Your task to perform on an android device: Empty the shopping cart on costco.com. Image 0: 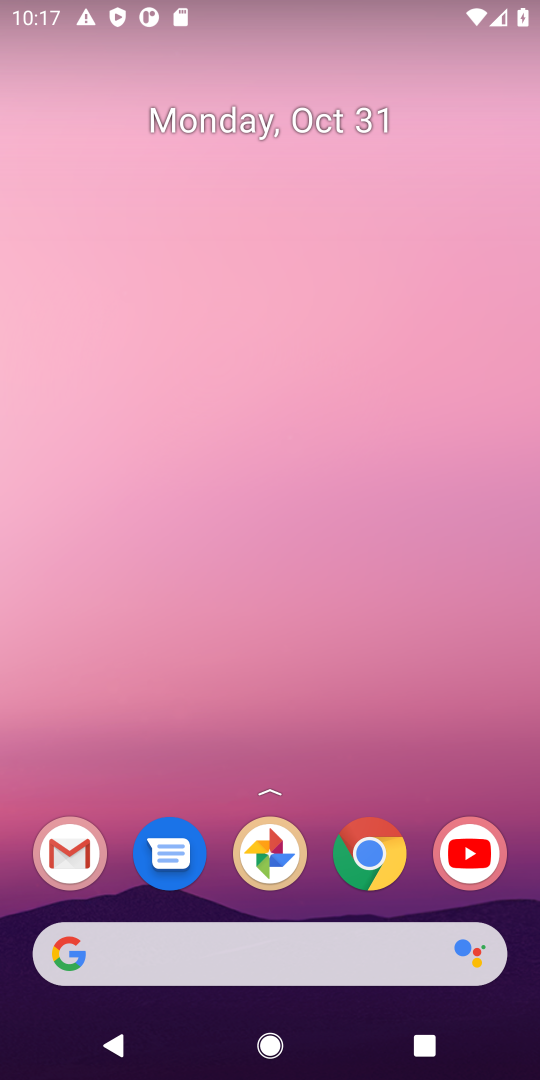
Step 0: click (192, 957)
Your task to perform on an android device: Empty the shopping cart on costco.com. Image 1: 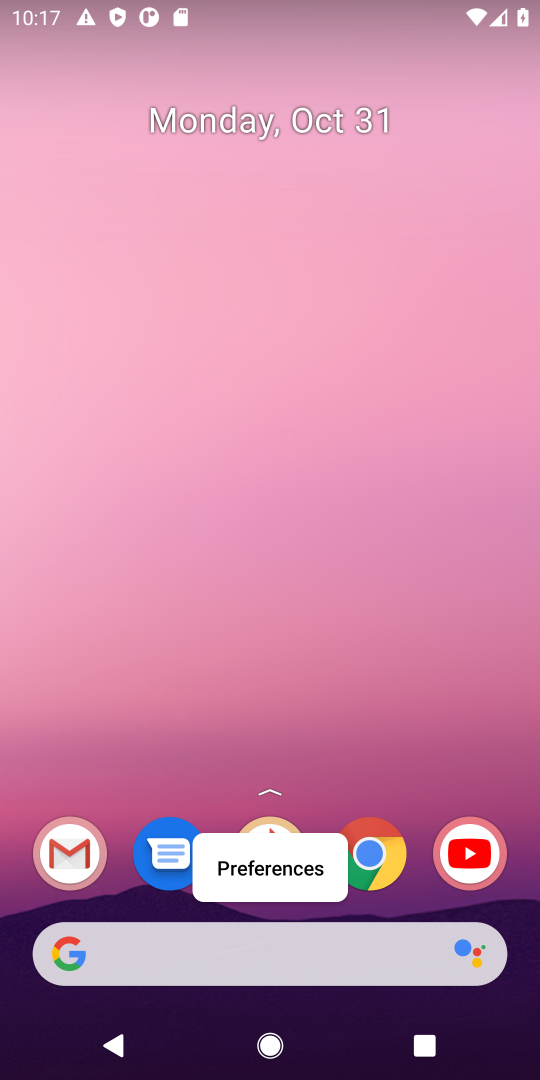
Step 1: click (274, 967)
Your task to perform on an android device: Empty the shopping cart on costco.com. Image 2: 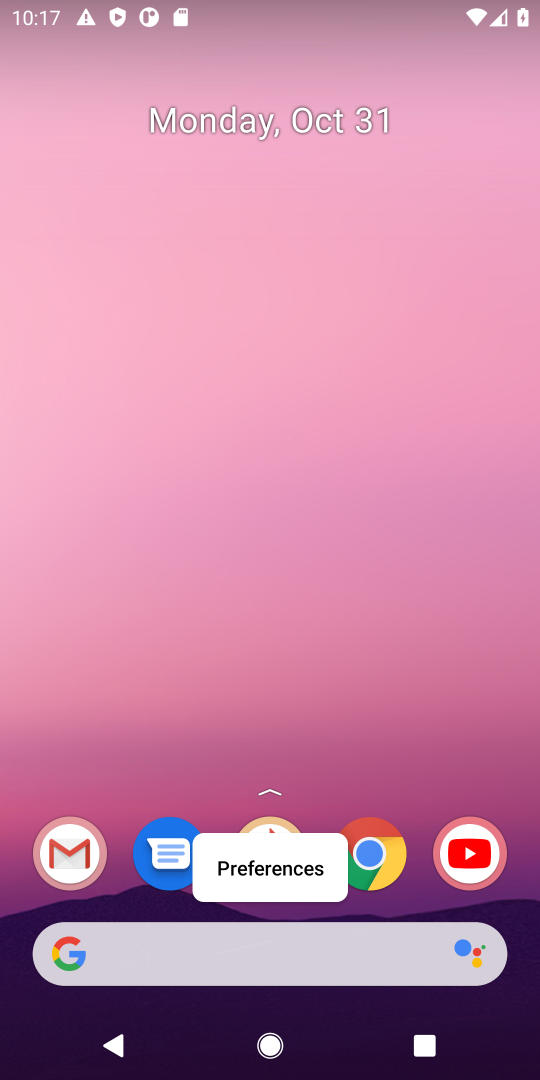
Step 2: click (230, 941)
Your task to perform on an android device: Empty the shopping cart on costco.com. Image 3: 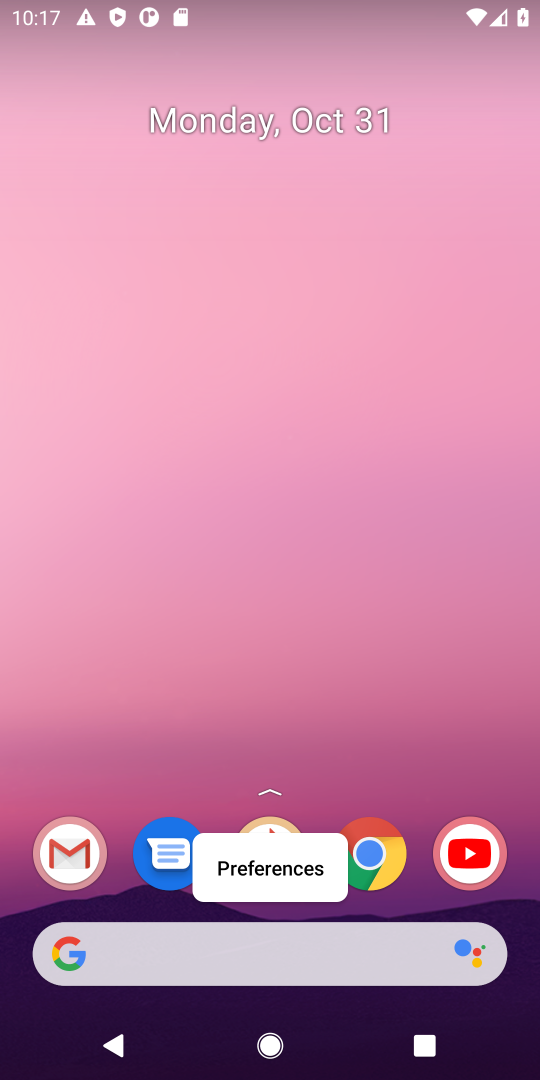
Step 3: click (234, 938)
Your task to perform on an android device: Empty the shopping cart on costco.com. Image 4: 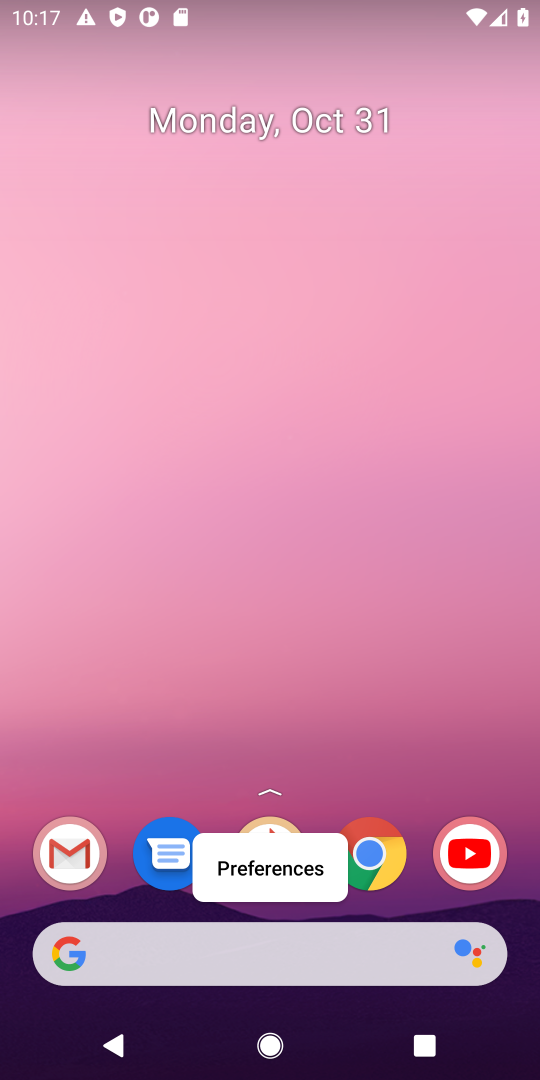
Step 4: click (234, 938)
Your task to perform on an android device: Empty the shopping cart on costco.com. Image 5: 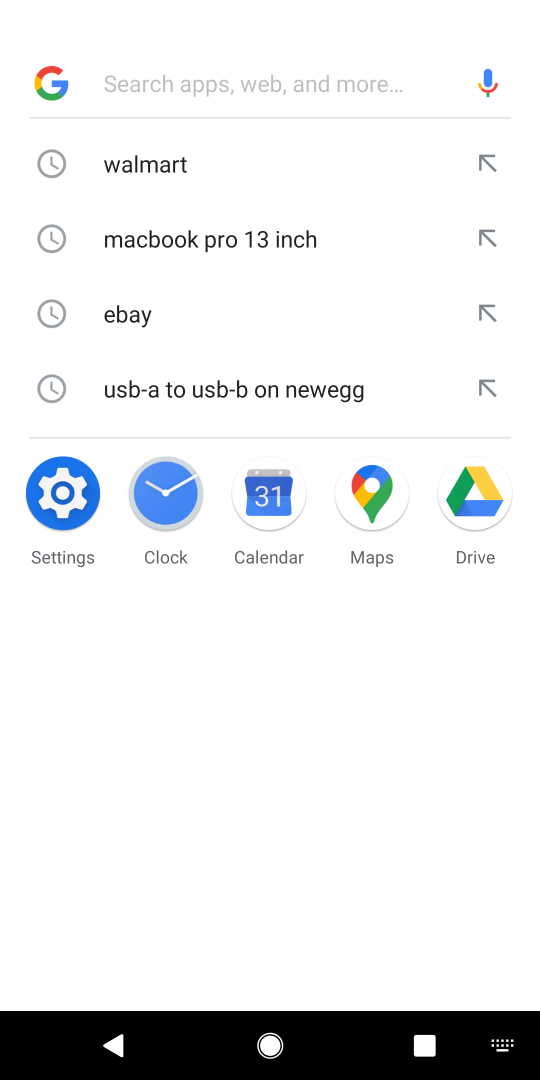
Step 5: type "costco.com"
Your task to perform on an android device: Empty the shopping cart on costco.com. Image 6: 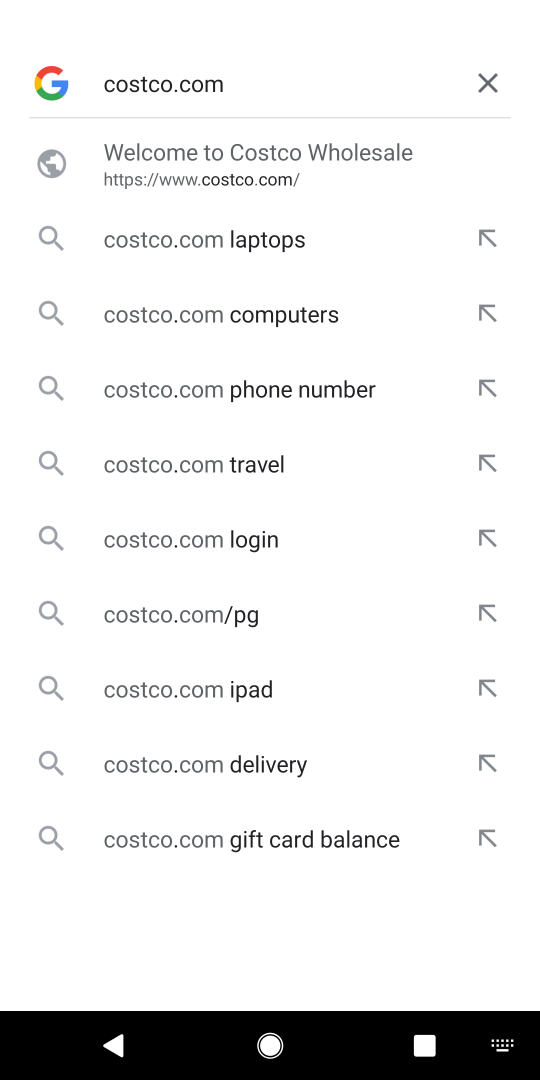
Step 6: type ""
Your task to perform on an android device: Empty the shopping cart on costco.com. Image 7: 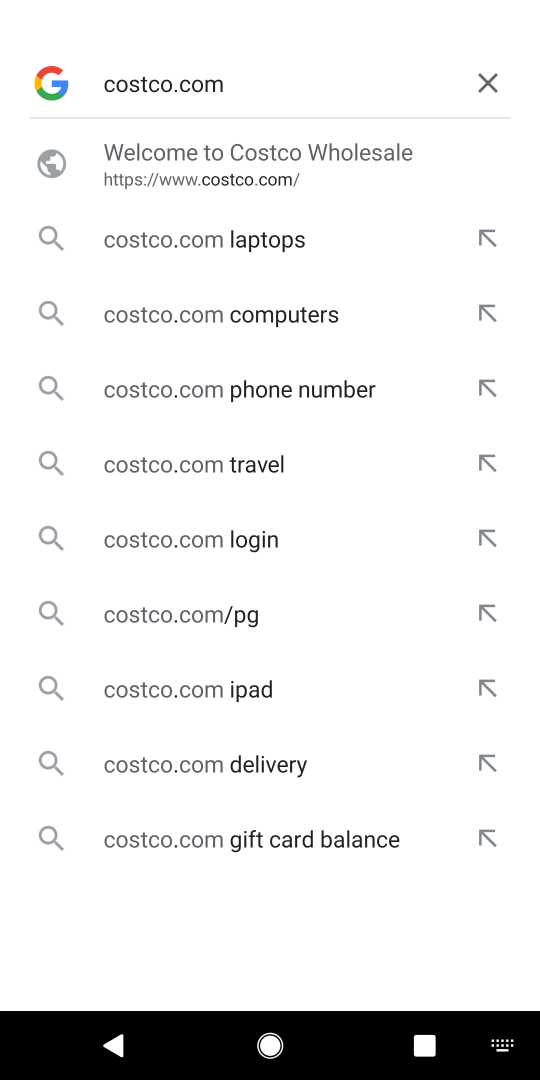
Step 7: press enter
Your task to perform on an android device: Empty the shopping cart on costco.com. Image 8: 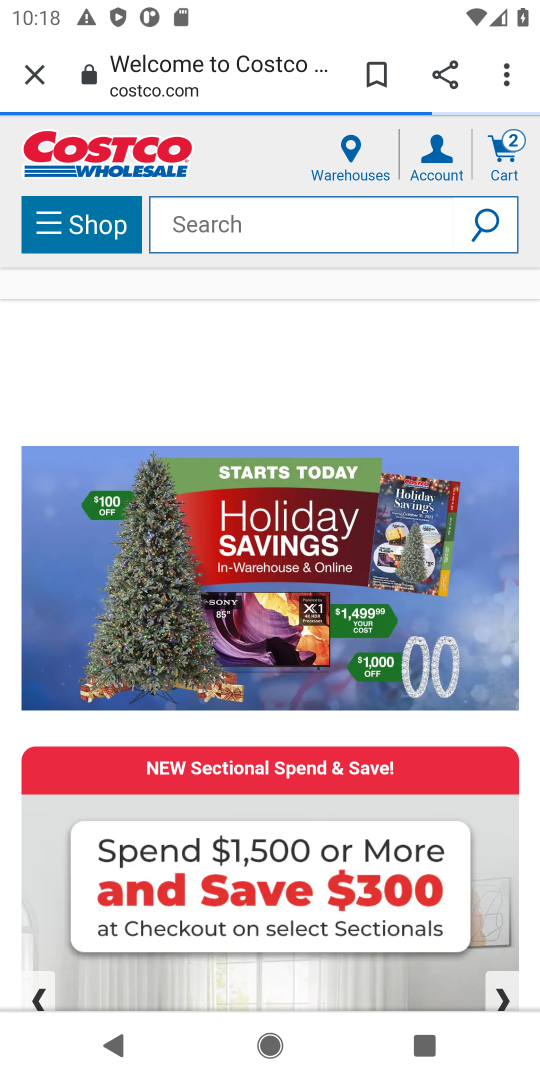
Step 8: click (235, 230)
Your task to perform on an android device: Empty the shopping cart on costco.com. Image 9: 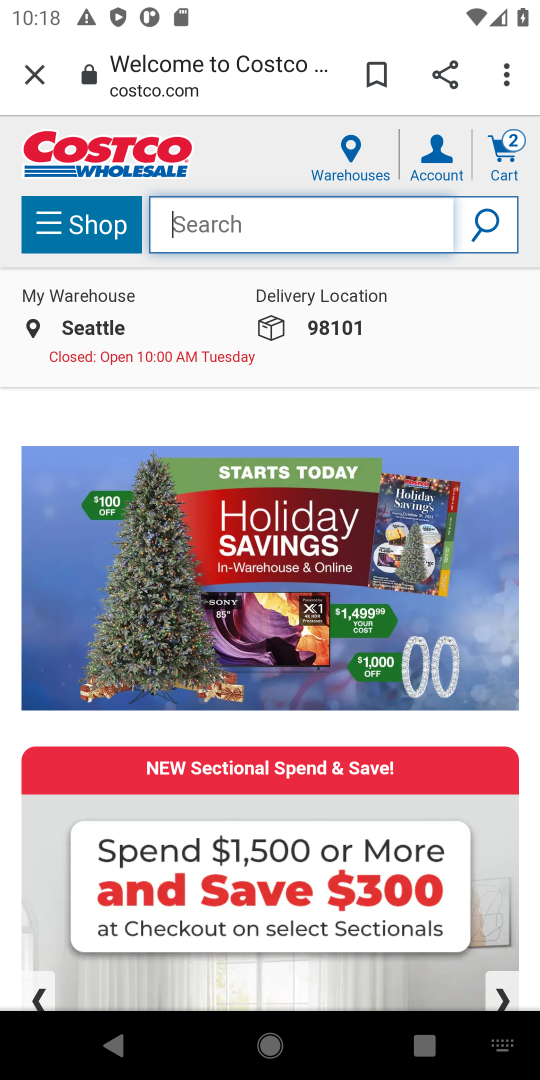
Step 9: click (515, 149)
Your task to perform on an android device: Empty the shopping cart on costco.com. Image 10: 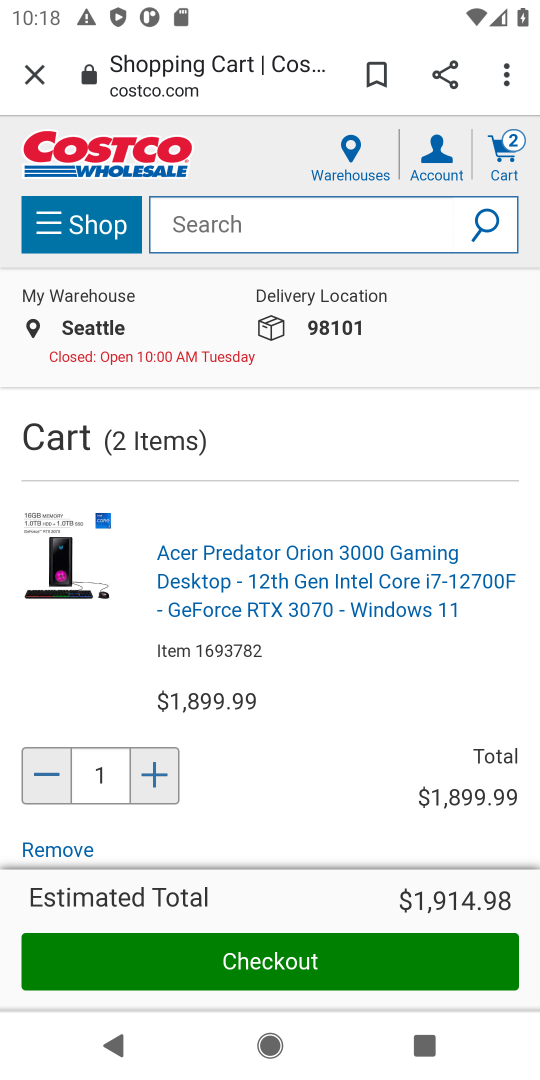
Step 10: click (47, 785)
Your task to perform on an android device: Empty the shopping cart on costco.com. Image 11: 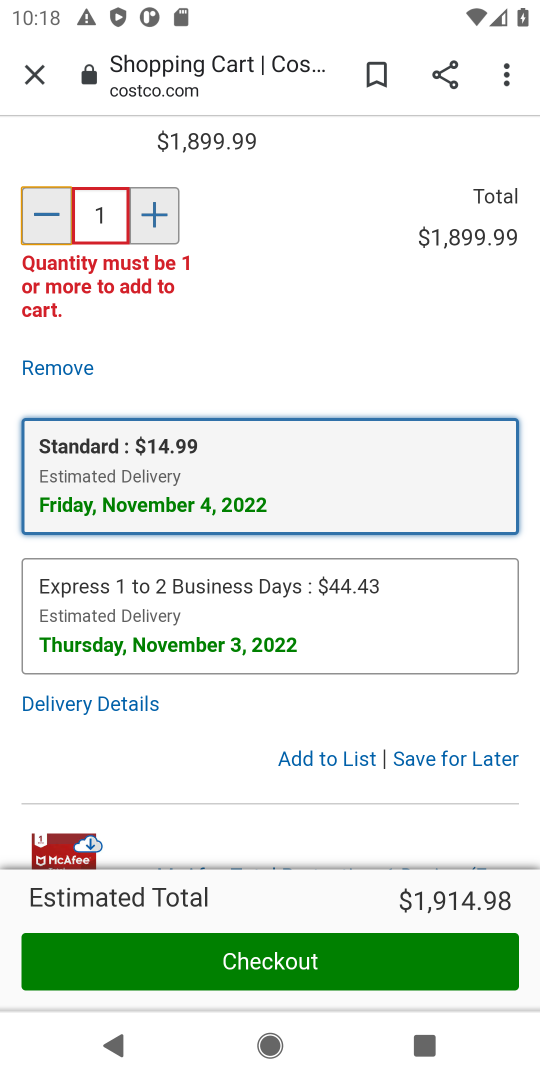
Step 11: click (40, 200)
Your task to perform on an android device: Empty the shopping cart on costco.com. Image 12: 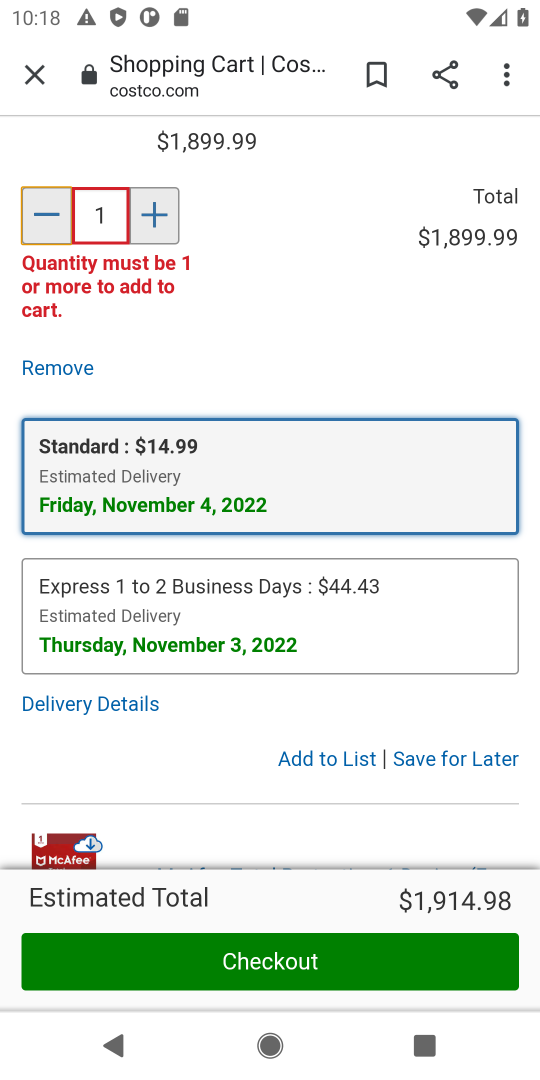
Step 12: click (43, 208)
Your task to perform on an android device: Empty the shopping cart on costco.com. Image 13: 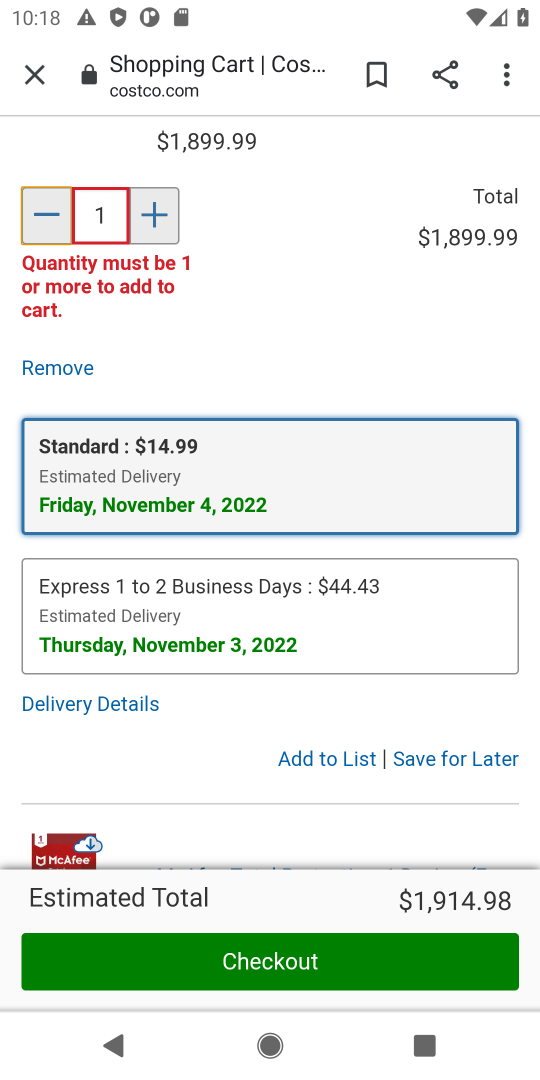
Step 13: click (43, 211)
Your task to perform on an android device: Empty the shopping cart on costco.com. Image 14: 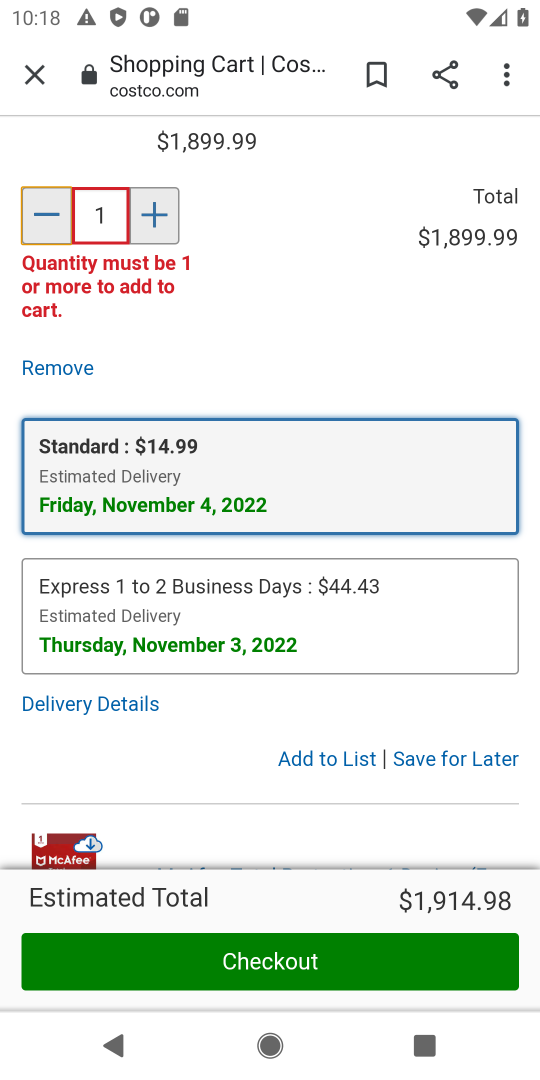
Step 14: click (43, 211)
Your task to perform on an android device: Empty the shopping cart on costco.com. Image 15: 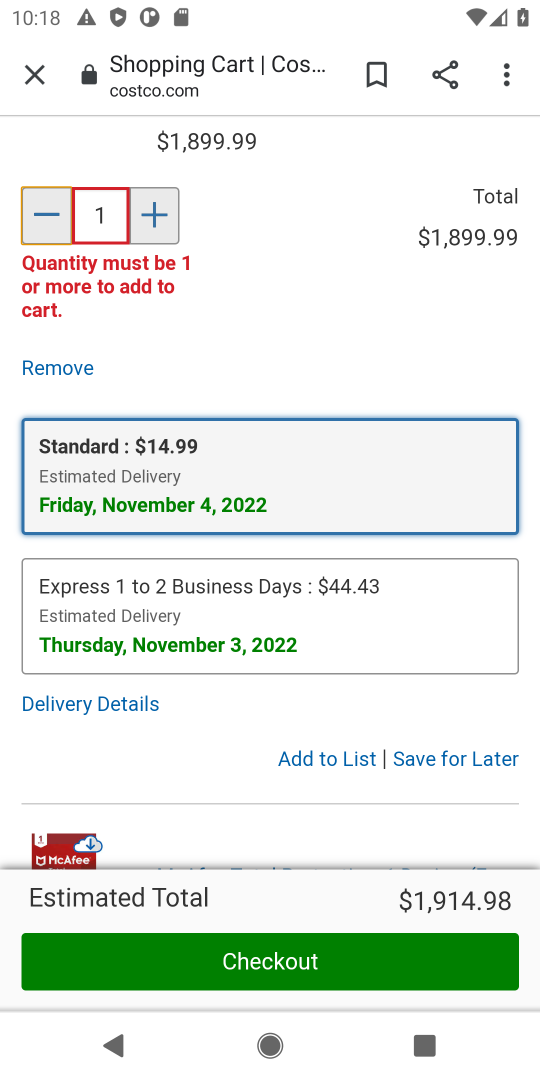
Step 15: drag from (306, 291) to (247, 1037)
Your task to perform on an android device: Empty the shopping cart on costco.com. Image 16: 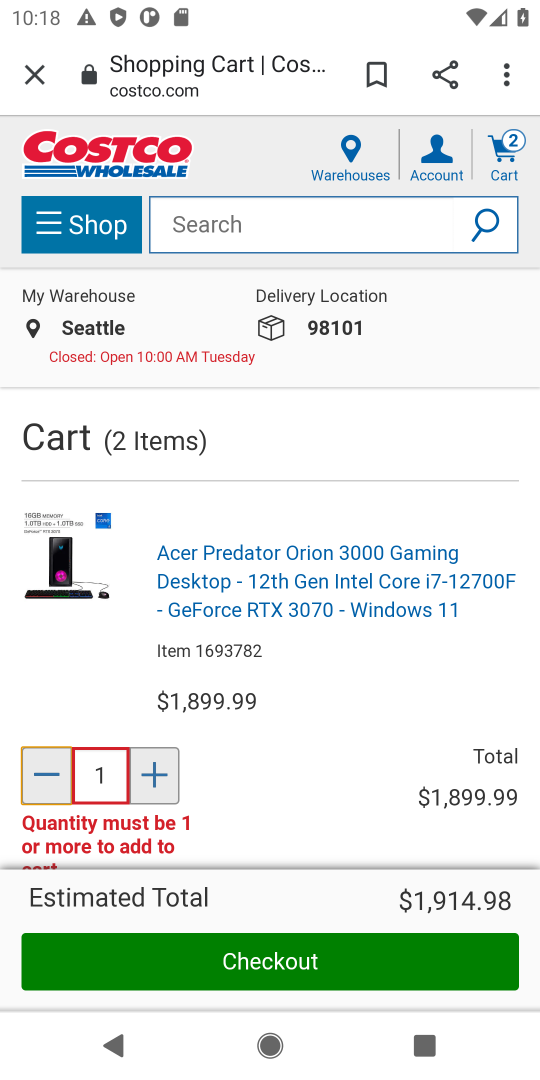
Step 16: drag from (230, 386) to (232, 688)
Your task to perform on an android device: Empty the shopping cart on costco.com. Image 17: 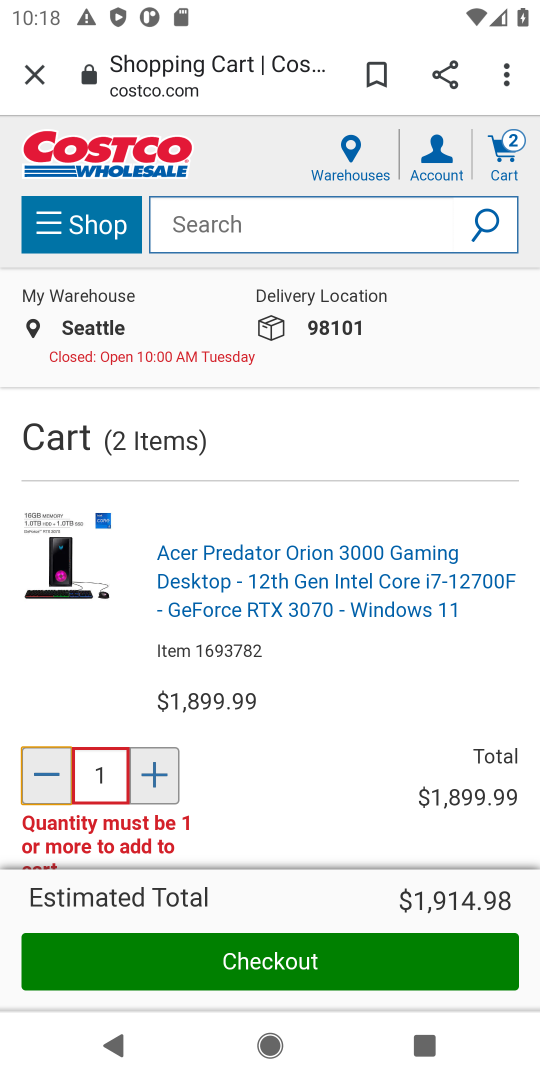
Step 17: drag from (265, 698) to (244, 545)
Your task to perform on an android device: Empty the shopping cart on costco.com. Image 18: 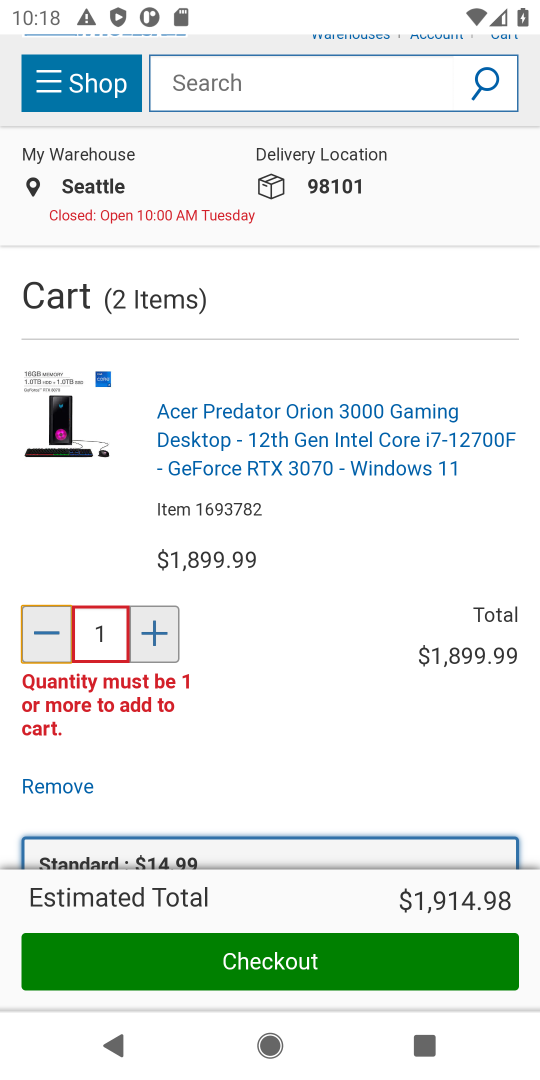
Step 18: click (58, 690)
Your task to perform on an android device: Empty the shopping cart on costco.com. Image 19: 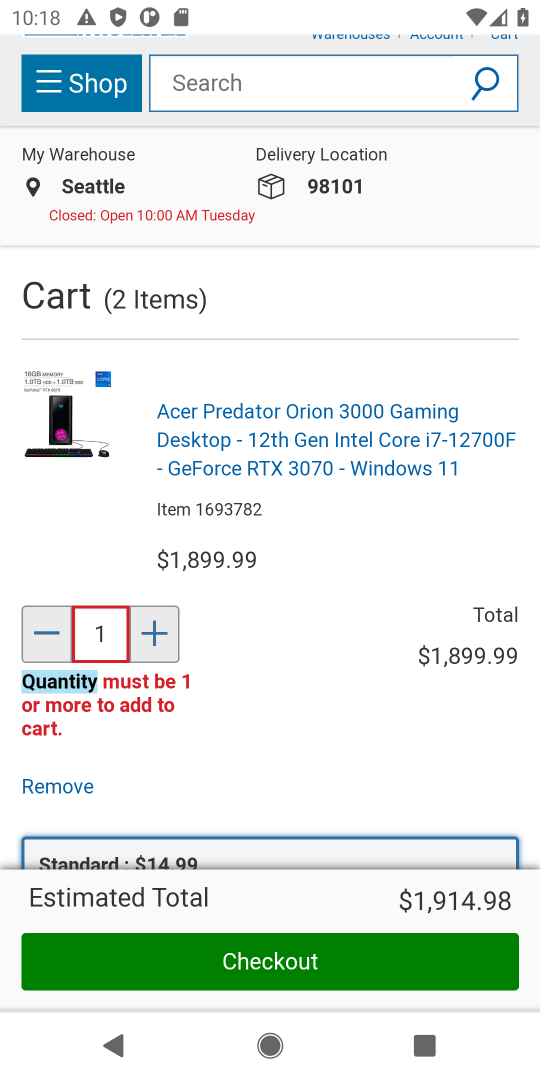
Step 19: click (162, 510)
Your task to perform on an android device: Empty the shopping cart on costco.com. Image 20: 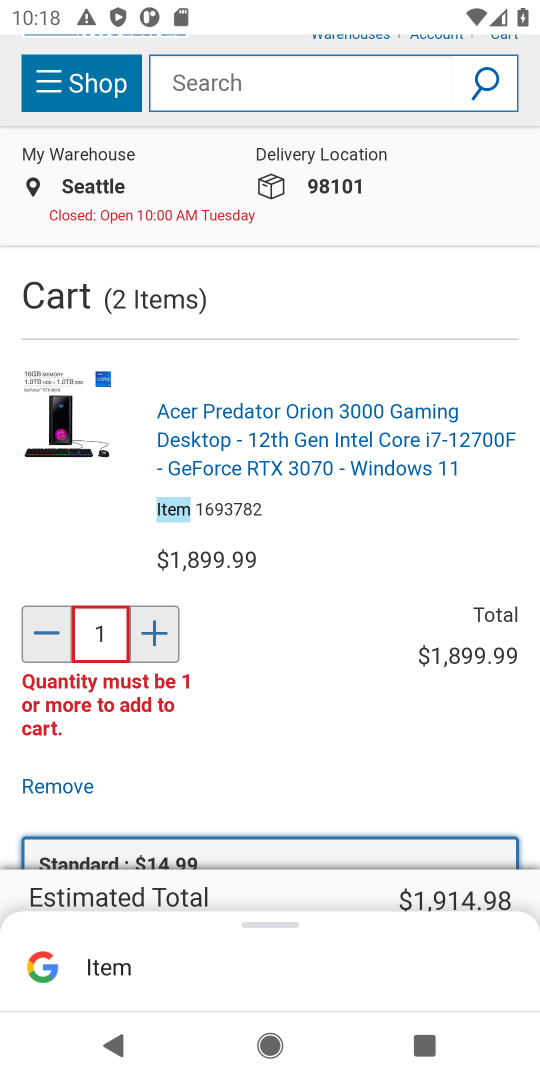
Step 20: click (277, 726)
Your task to perform on an android device: Empty the shopping cart on costco.com. Image 21: 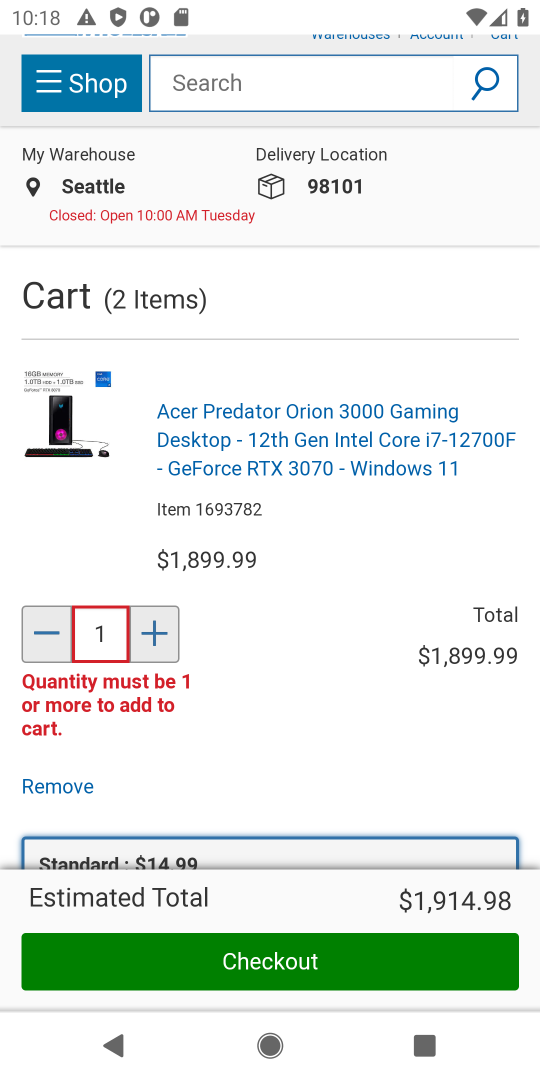
Step 21: click (31, 640)
Your task to perform on an android device: Empty the shopping cart on costco.com. Image 22: 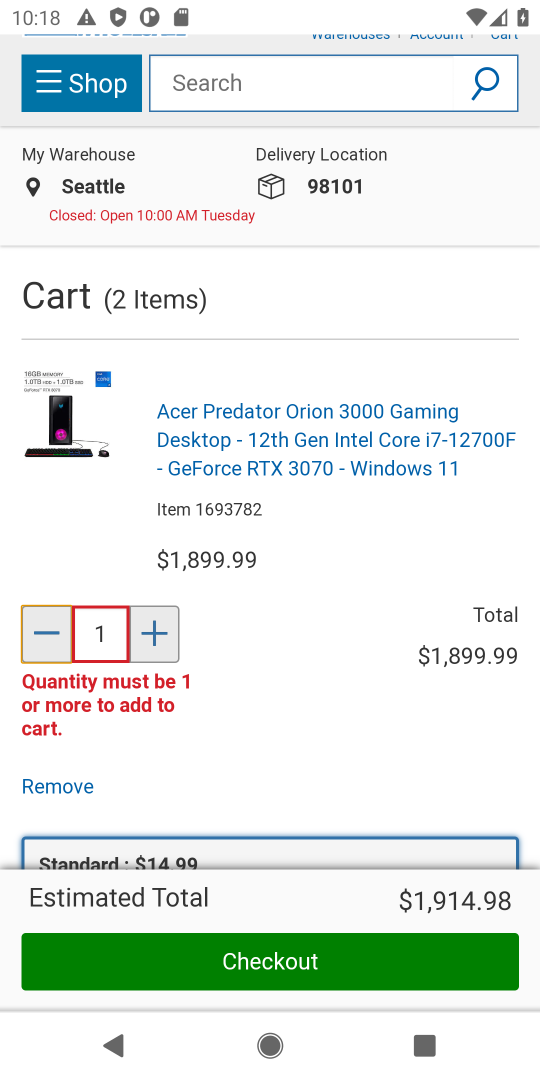
Step 22: click (66, 778)
Your task to perform on an android device: Empty the shopping cart on costco.com. Image 23: 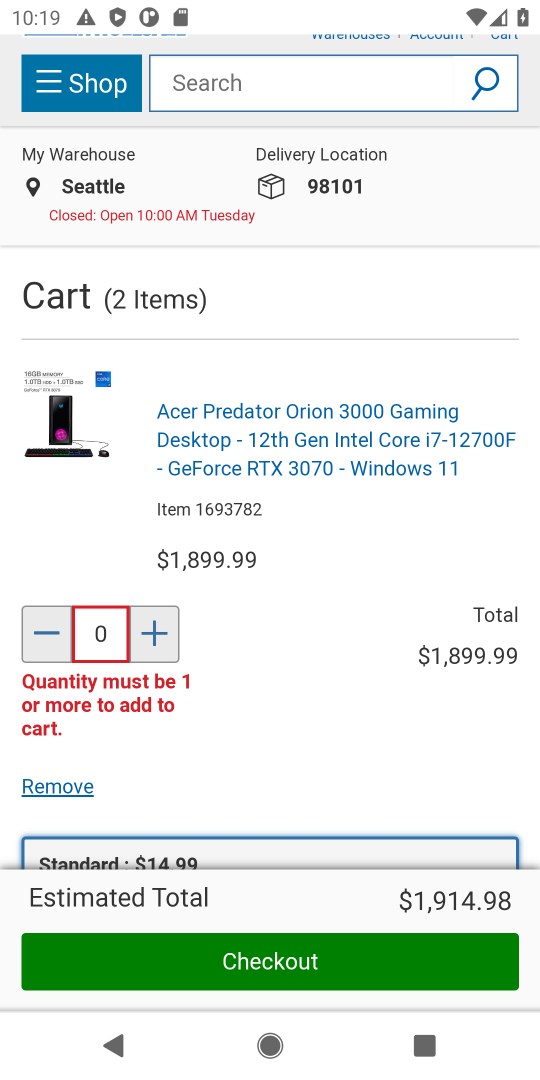
Step 23: click (53, 788)
Your task to perform on an android device: Empty the shopping cart on costco.com. Image 24: 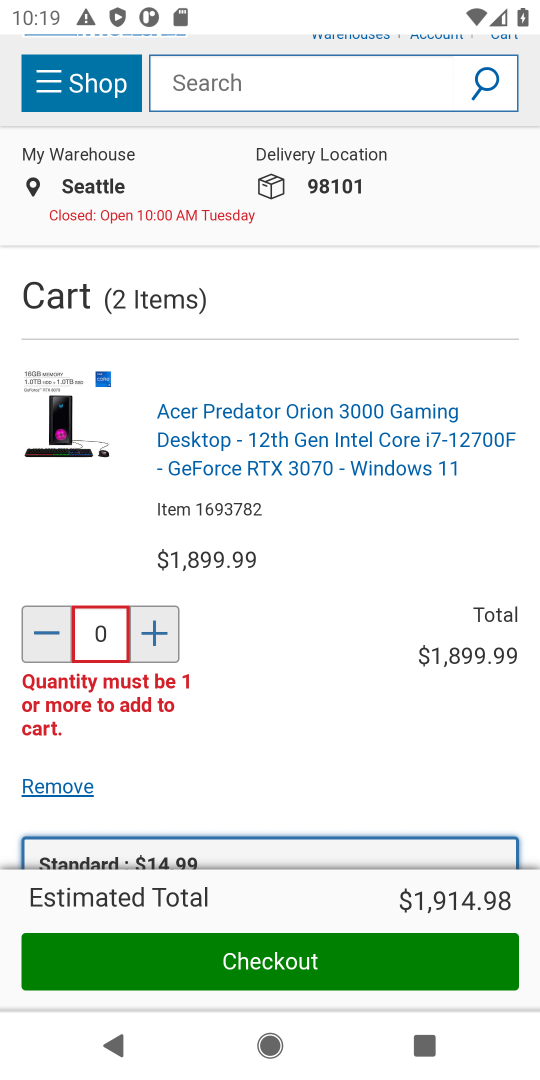
Step 24: click (53, 788)
Your task to perform on an android device: Empty the shopping cart on costco.com. Image 25: 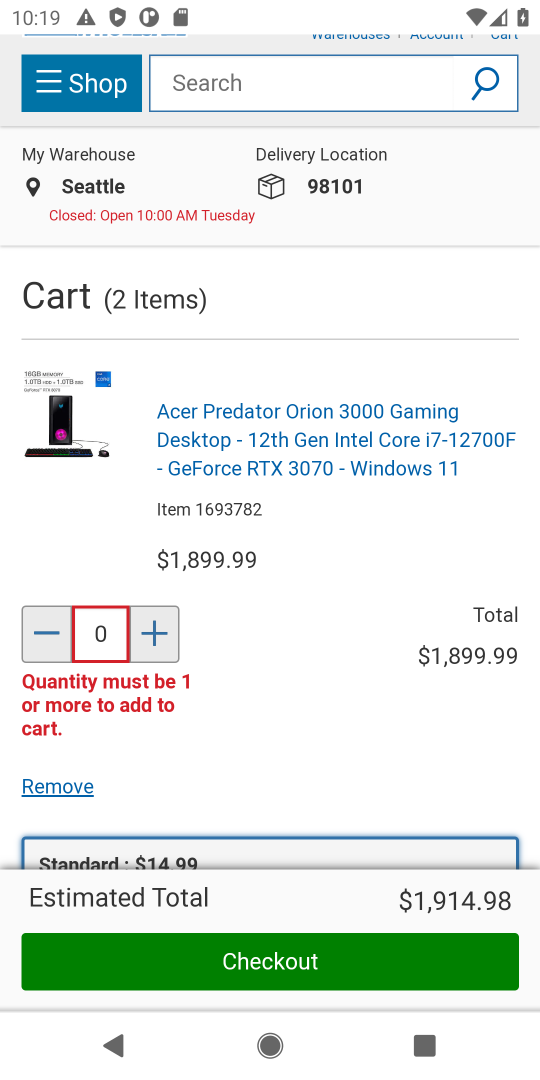
Step 25: drag from (240, 751) to (233, 308)
Your task to perform on an android device: Empty the shopping cart on costco.com. Image 26: 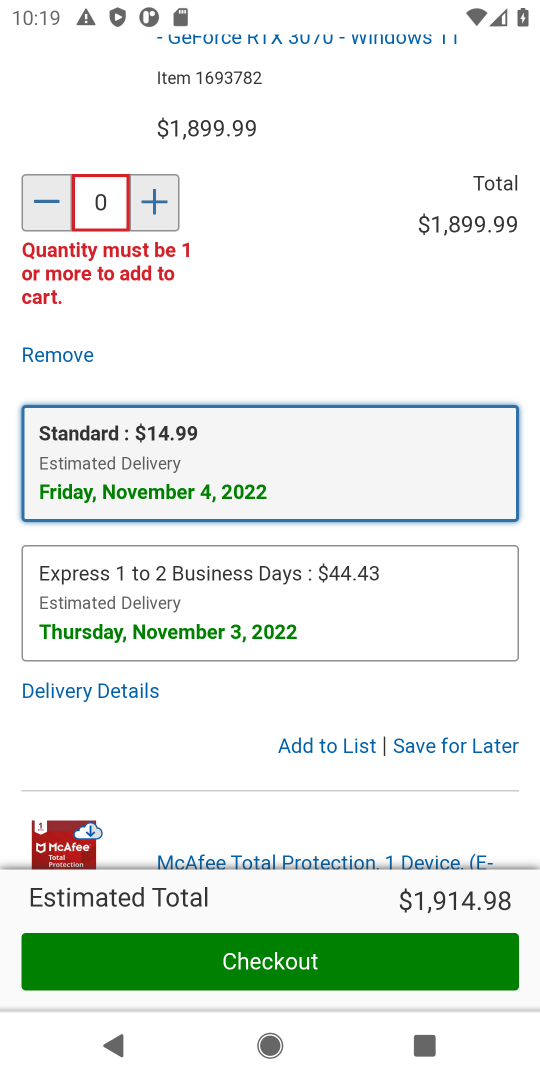
Step 26: drag from (152, 714) to (189, 309)
Your task to perform on an android device: Empty the shopping cart on costco.com. Image 27: 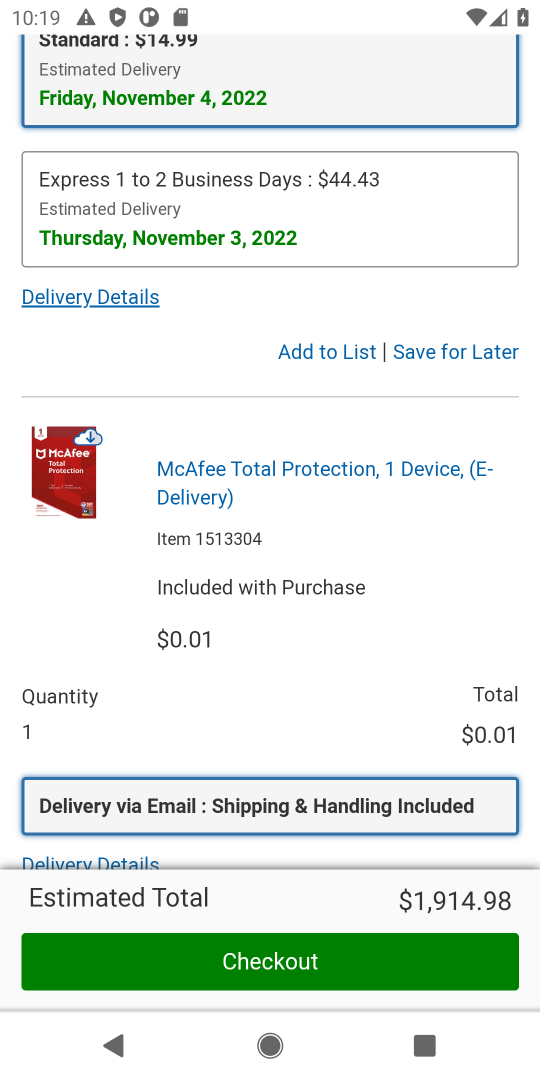
Step 27: drag from (128, 729) to (162, 379)
Your task to perform on an android device: Empty the shopping cart on costco.com. Image 28: 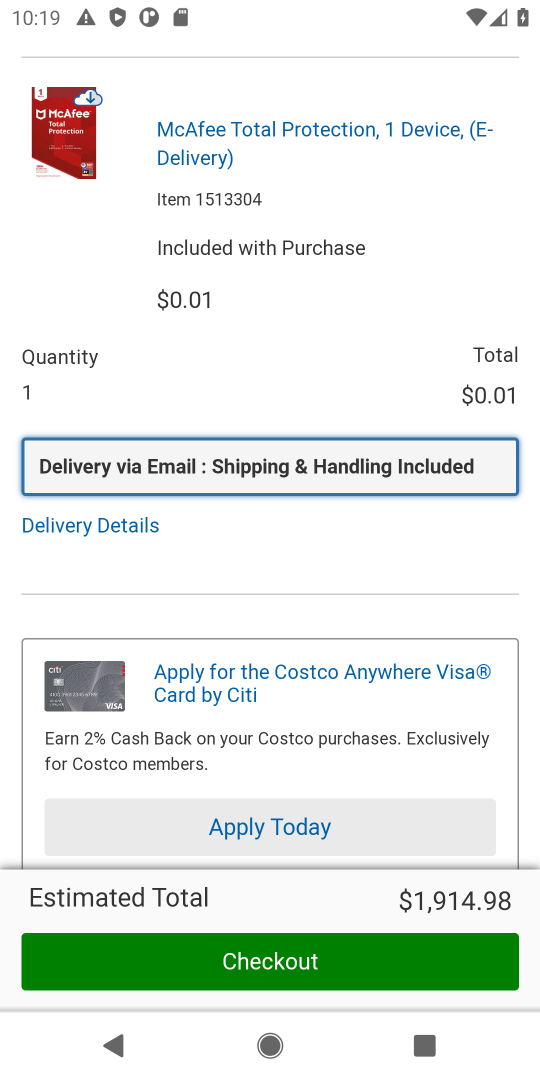
Step 28: drag from (335, 333) to (217, 946)
Your task to perform on an android device: Empty the shopping cart on costco.com. Image 29: 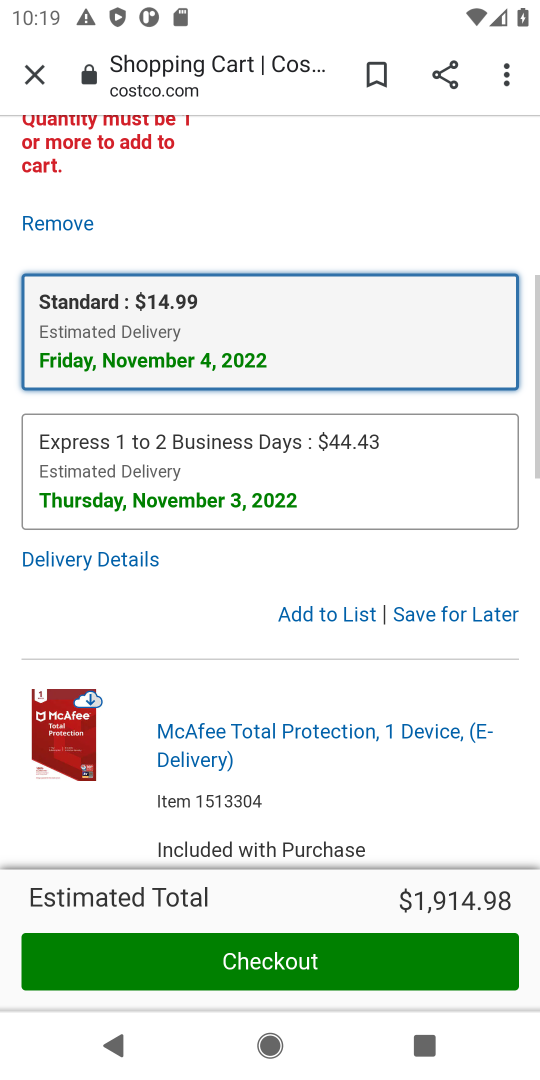
Step 29: drag from (242, 334) to (292, 787)
Your task to perform on an android device: Empty the shopping cart on costco.com. Image 30: 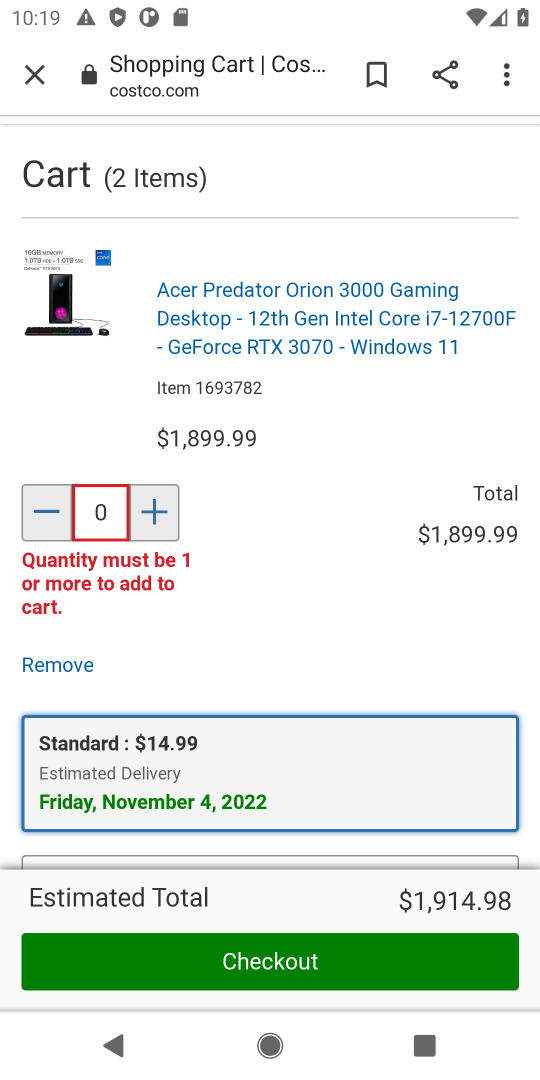
Step 30: drag from (298, 656) to (284, 601)
Your task to perform on an android device: Empty the shopping cart on costco.com. Image 31: 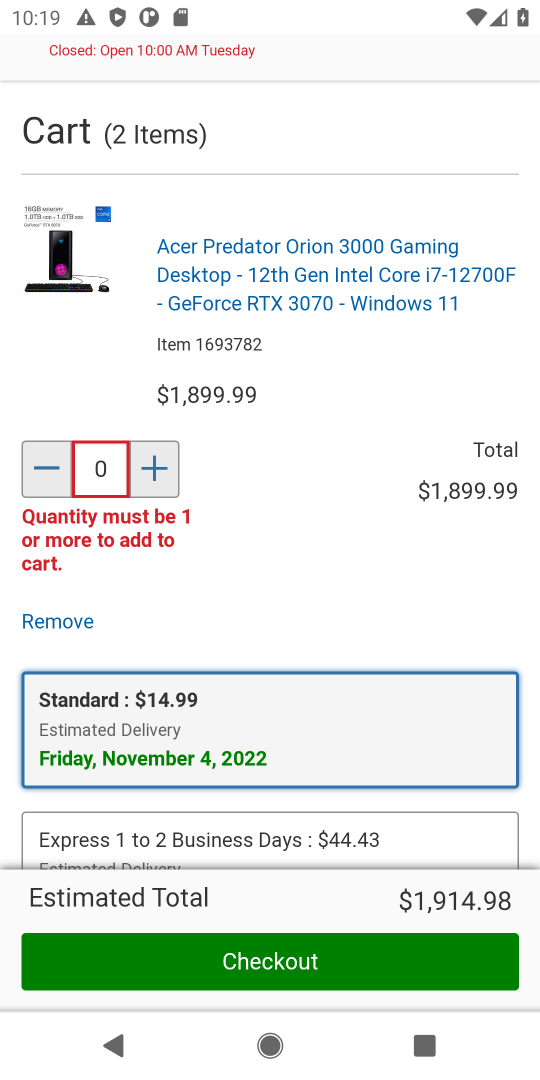
Step 31: click (54, 624)
Your task to perform on an android device: Empty the shopping cart on costco.com. Image 32: 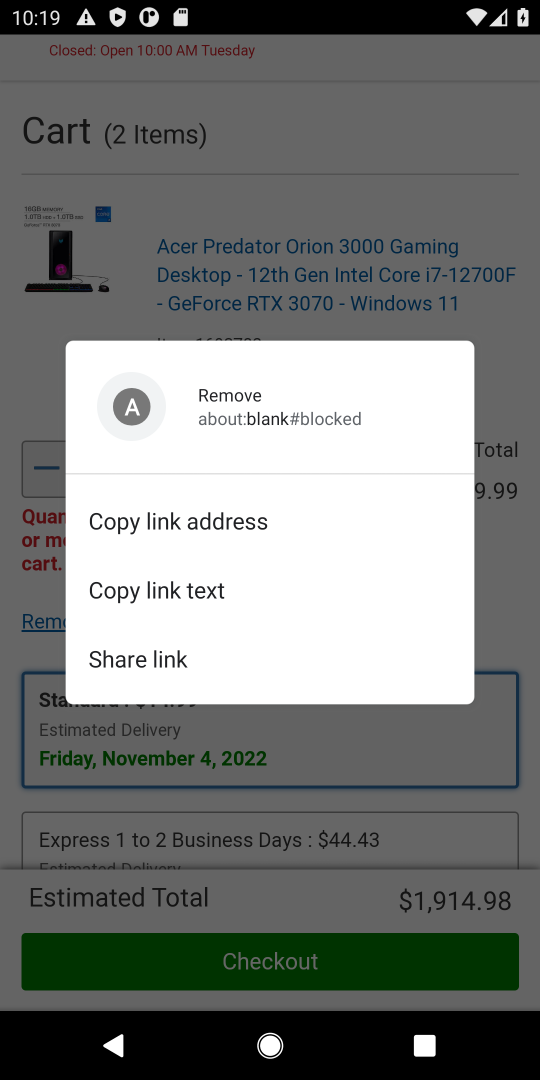
Step 32: click (54, 625)
Your task to perform on an android device: Empty the shopping cart on costco.com. Image 33: 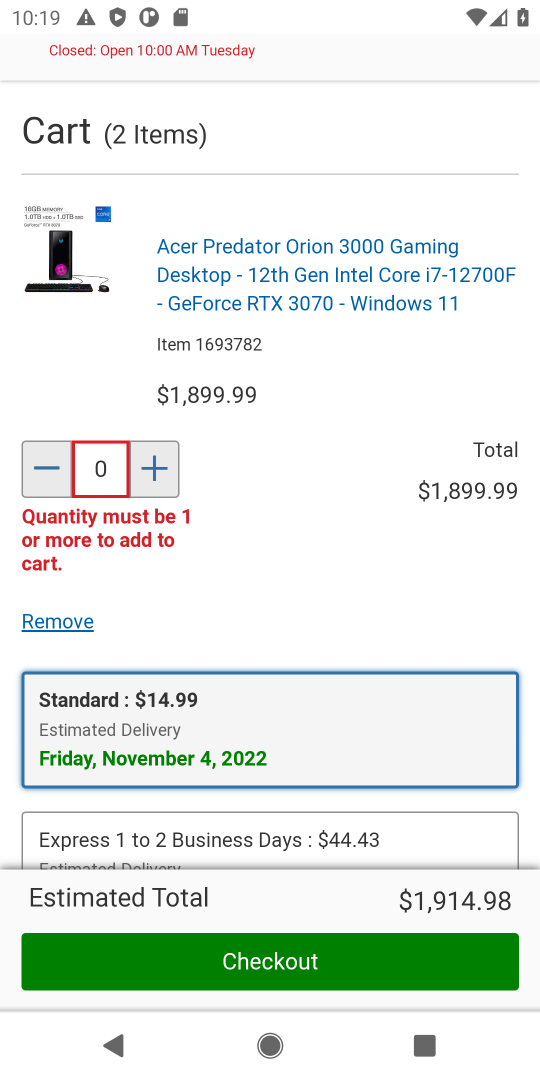
Step 33: click (54, 625)
Your task to perform on an android device: Empty the shopping cart on costco.com. Image 34: 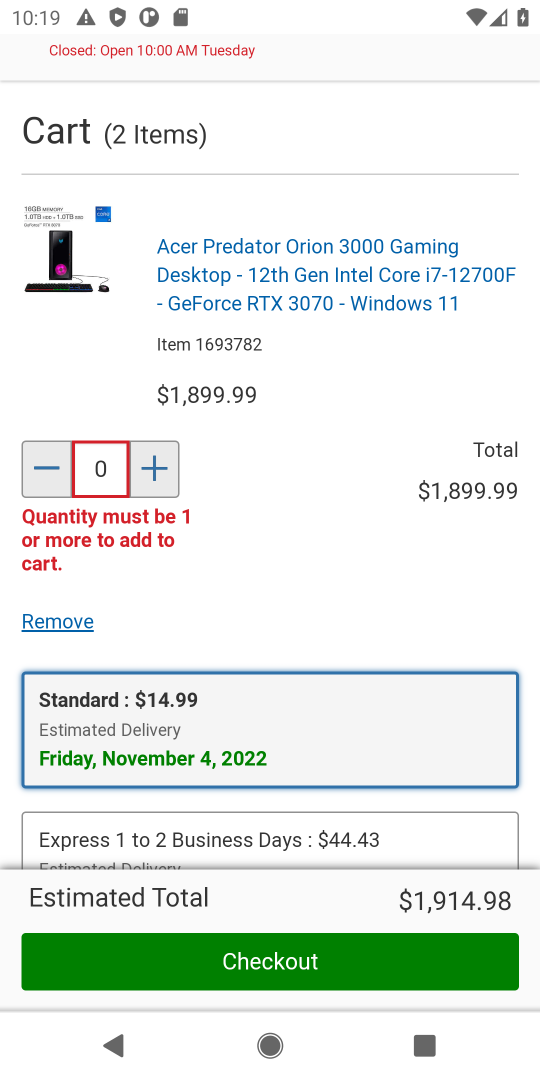
Step 34: click (322, 745)
Your task to perform on an android device: Empty the shopping cart on costco.com. Image 35: 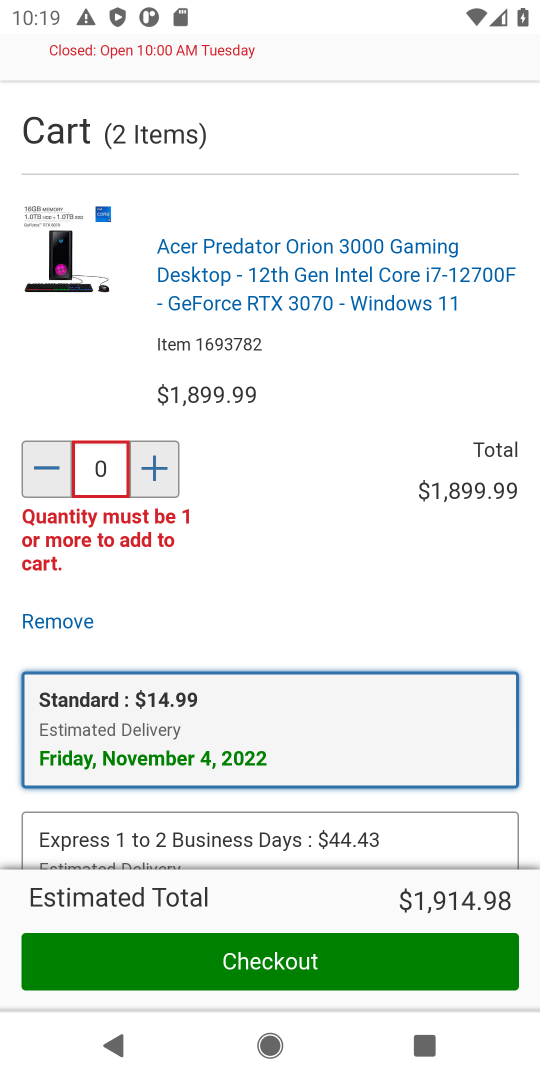
Step 35: drag from (317, 742) to (255, 315)
Your task to perform on an android device: Empty the shopping cart on costco.com. Image 36: 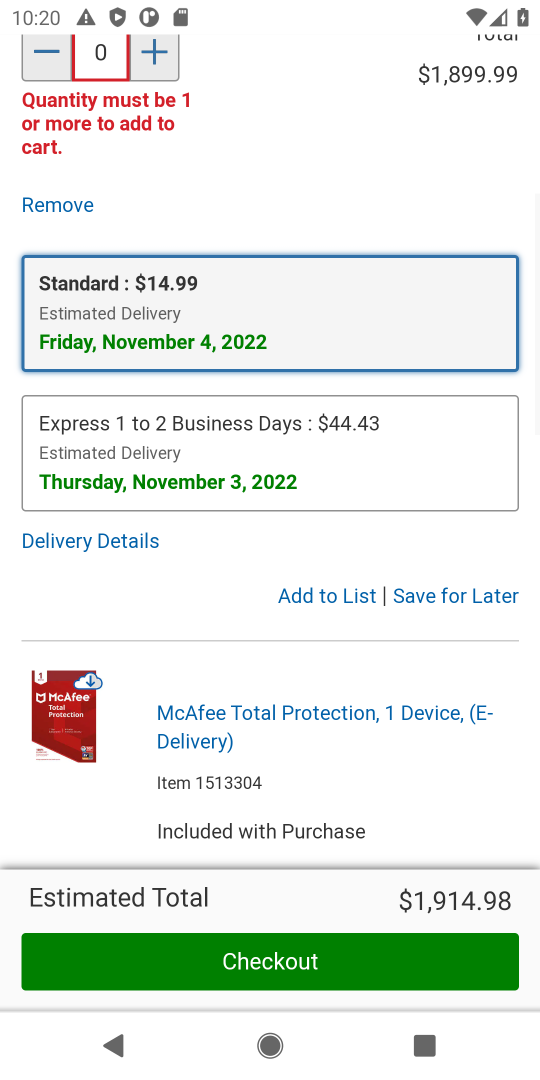
Step 36: click (265, 950)
Your task to perform on an android device: Empty the shopping cart on costco.com. Image 37: 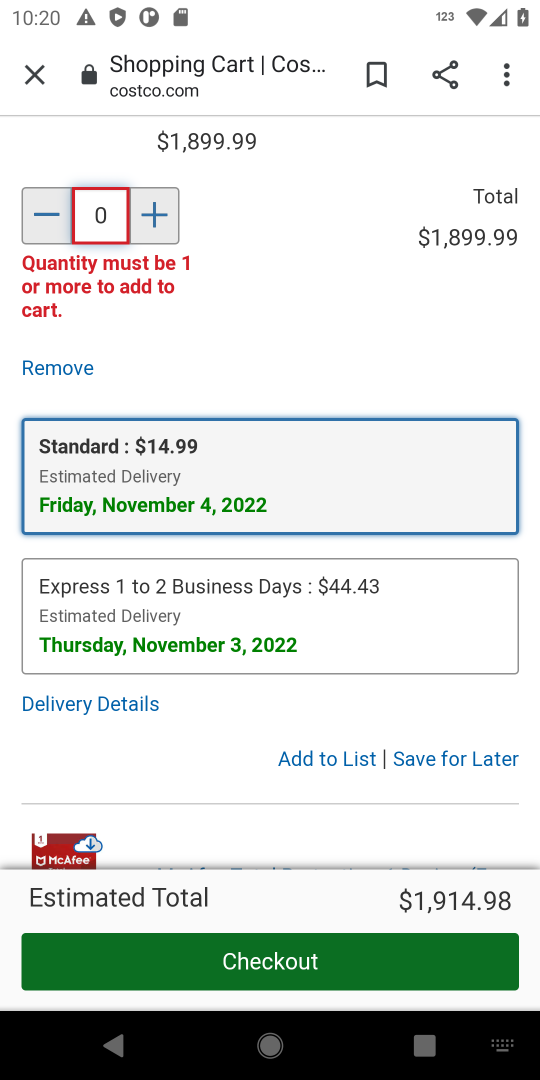
Step 37: click (55, 220)
Your task to perform on an android device: Empty the shopping cart on costco.com. Image 38: 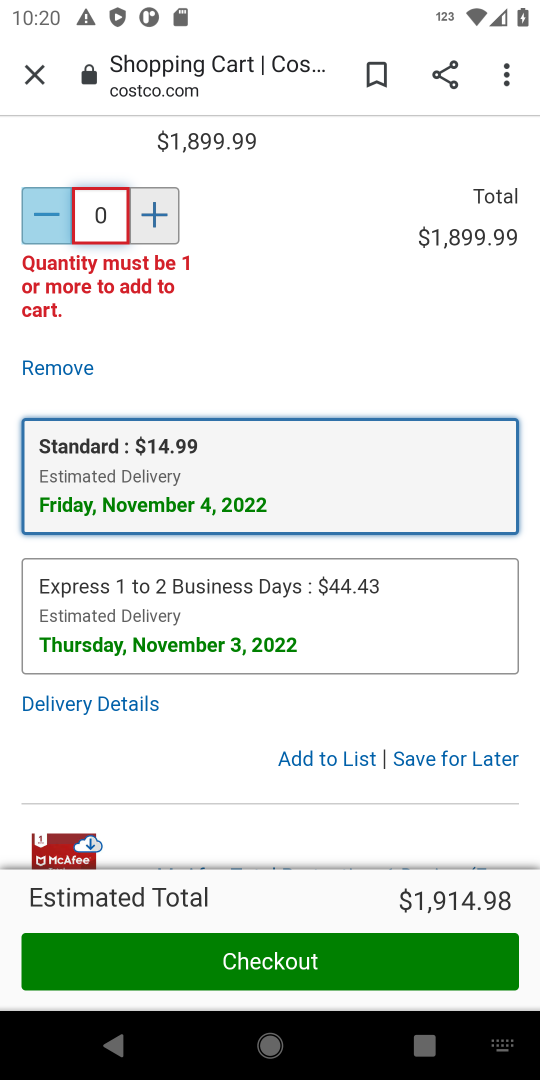
Step 38: click (366, 337)
Your task to perform on an android device: Empty the shopping cart on costco.com. Image 39: 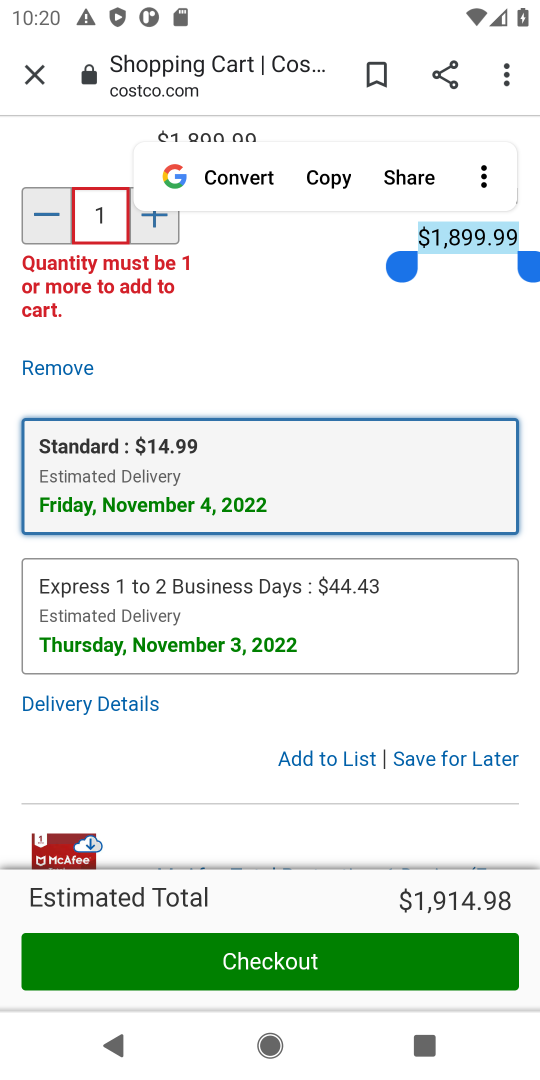
Step 39: click (411, 889)
Your task to perform on an android device: Empty the shopping cart on costco.com. Image 40: 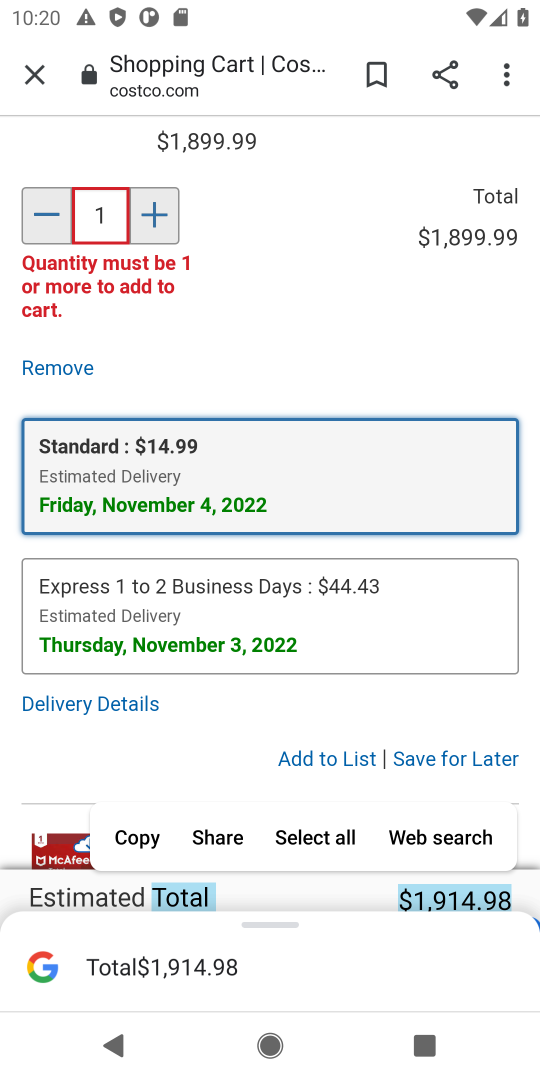
Step 40: click (317, 901)
Your task to perform on an android device: Empty the shopping cart on costco.com. Image 41: 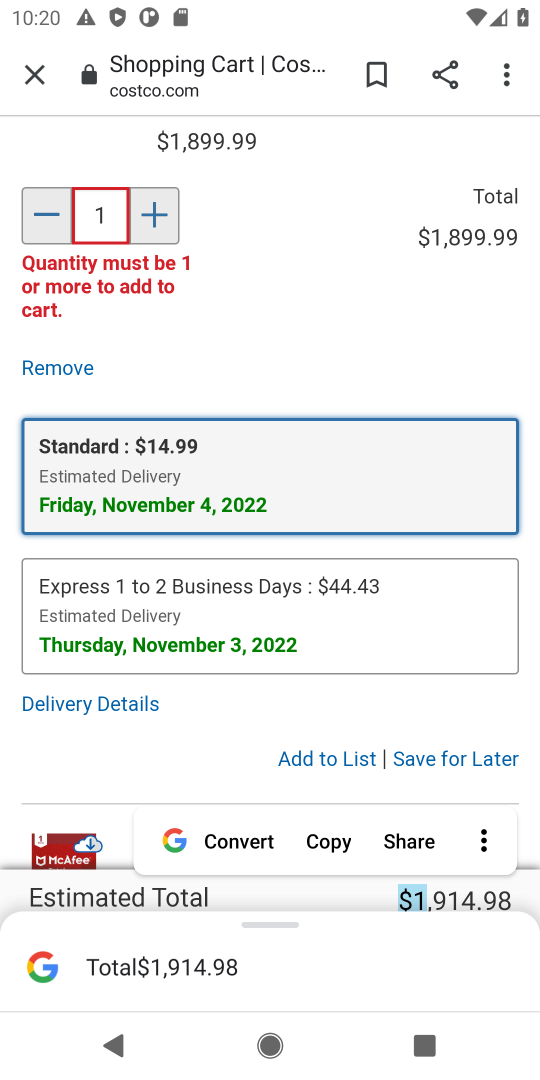
Step 41: click (199, 728)
Your task to perform on an android device: Empty the shopping cart on costco.com. Image 42: 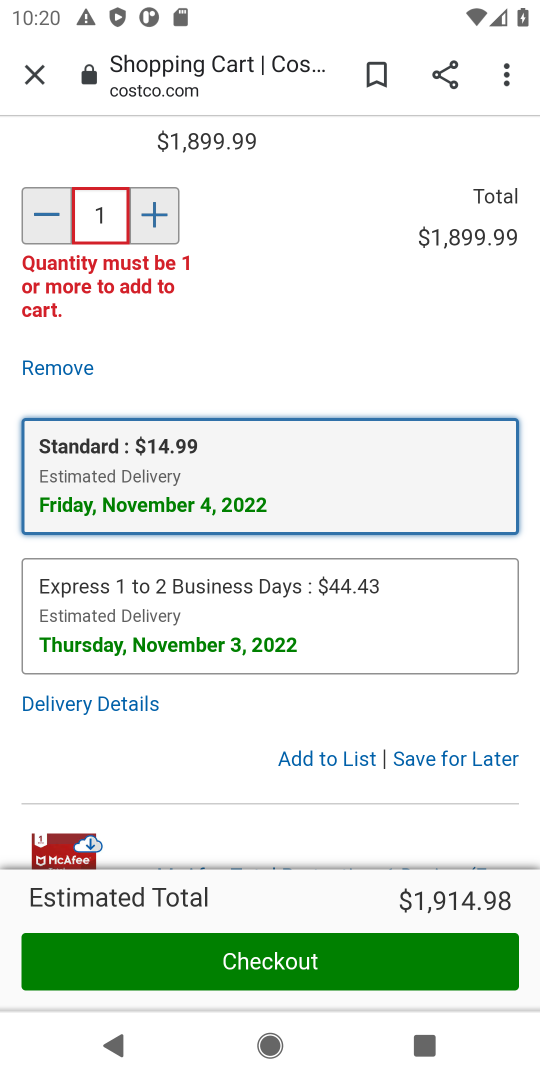
Step 42: drag from (197, 723) to (208, 283)
Your task to perform on an android device: Empty the shopping cart on costco.com. Image 43: 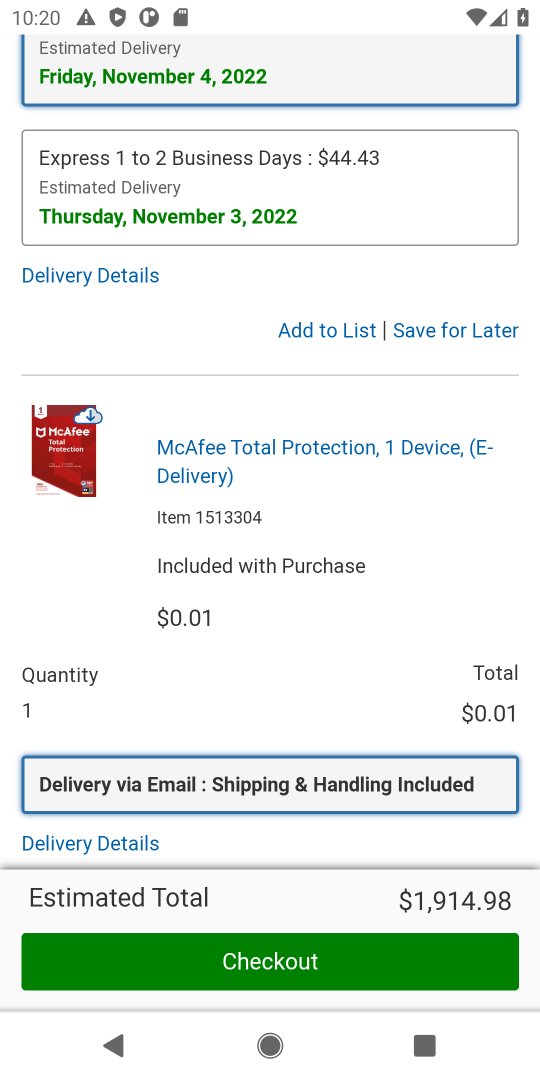
Step 43: drag from (318, 760) to (314, 252)
Your task to perform on an android device: Empty the shopping cart on costco.com. Image 44: 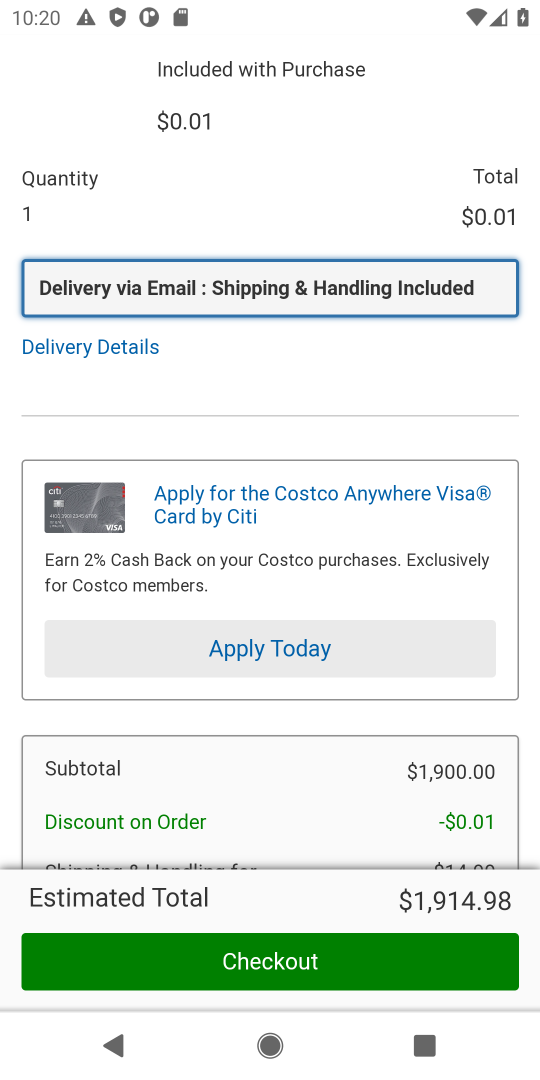
Step 44: drag from (303, 755) to (311, 560)
Your task to perform on an android device: Empty the shopping cart on costco.com. Image 45: 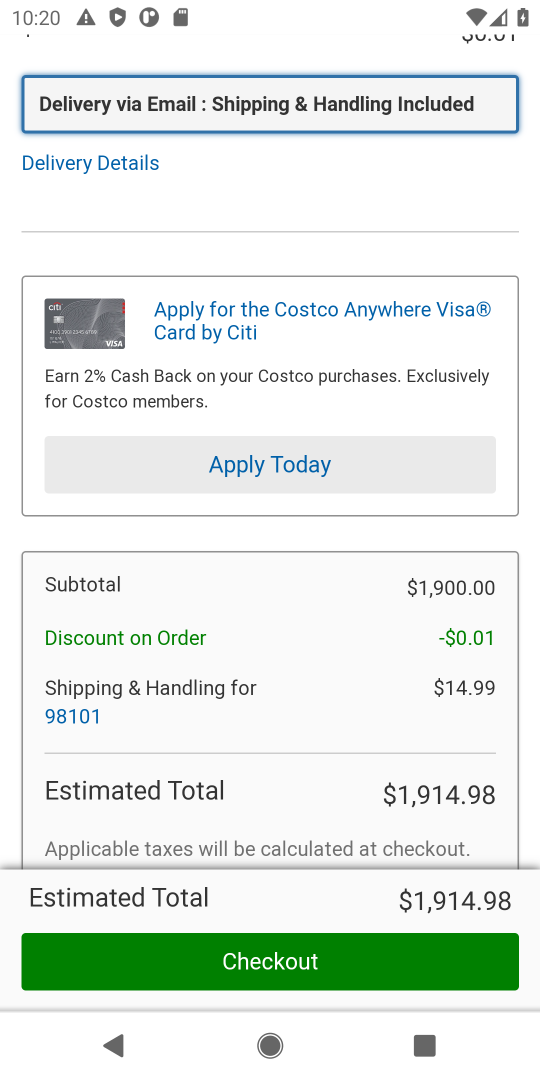
Step 45: drag from (294, 693) to (262, 441)
Your task to perform on an android device: Empty the shopping cart on costco.com. Image 46: 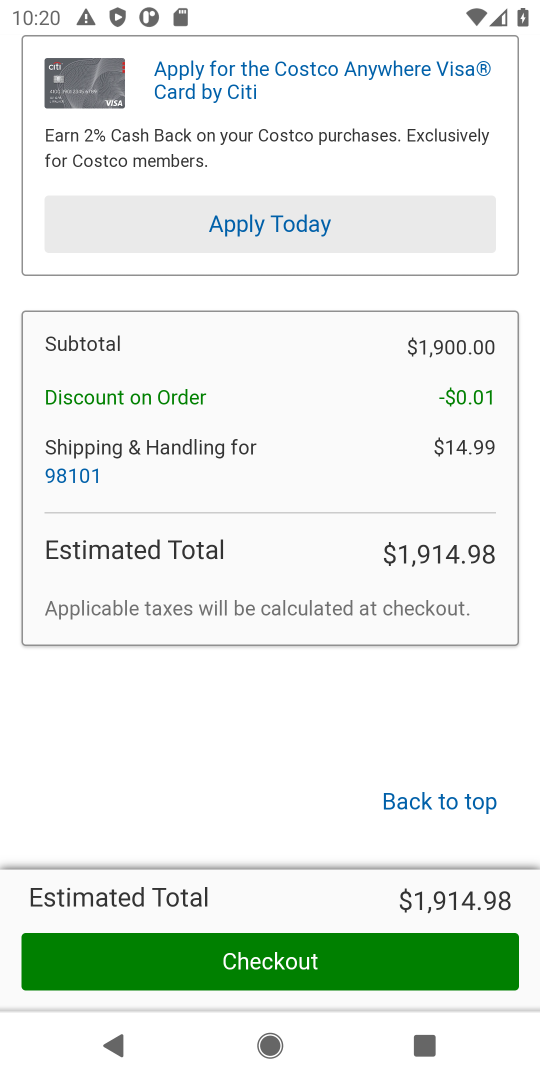
Step 46: click (446, 812)
Your task to perform on an android device: Empty the shopping cart on costco.com. Image 47: 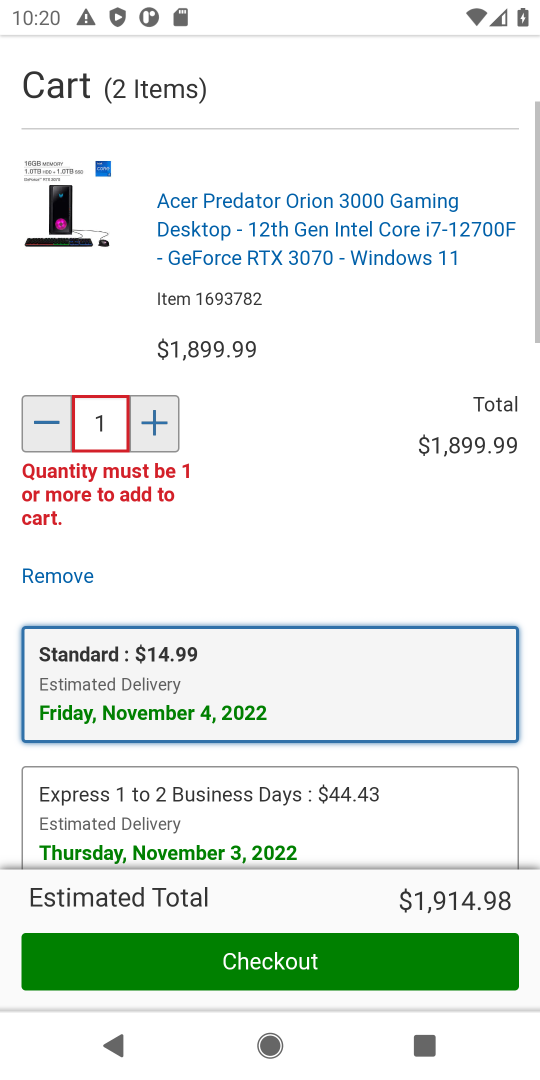
Step 47: click (445, 804)
Your task to perform on an android device: Empty the shopping cart on costco.com. Image 48: 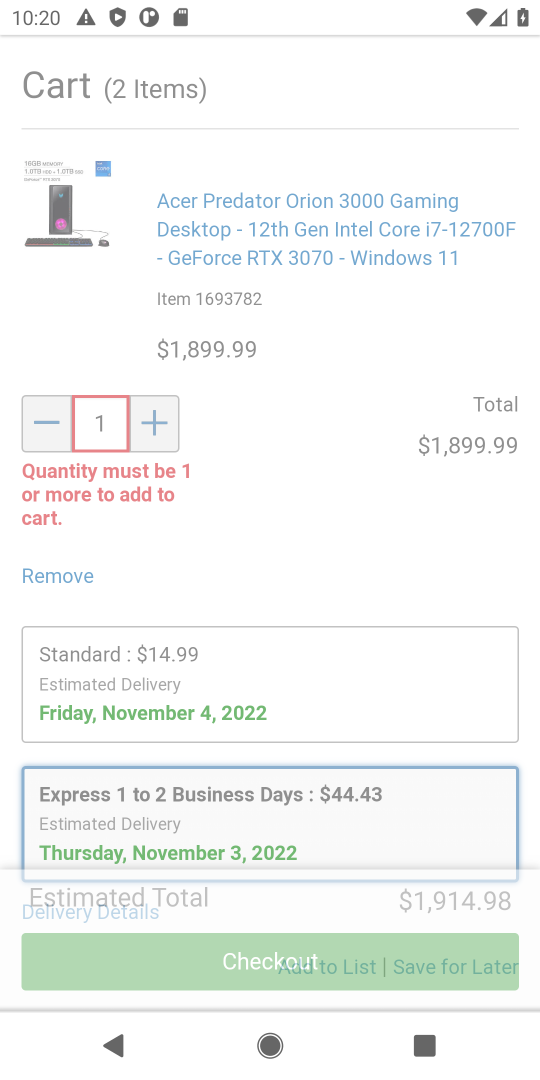
Step 48: click (43, 424)
Your task to perform on an android device: Empty the shopping cart on costco.com. Image 49: 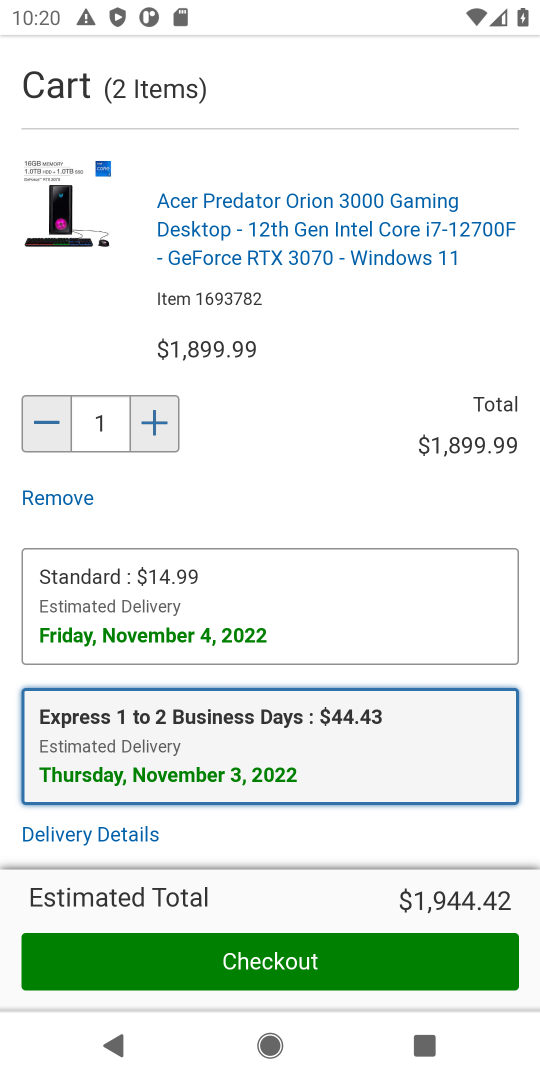
Step 49: click (43, 492)
Your task to perform on an android device: Empty the shopping cart on costco.com. Image 50: 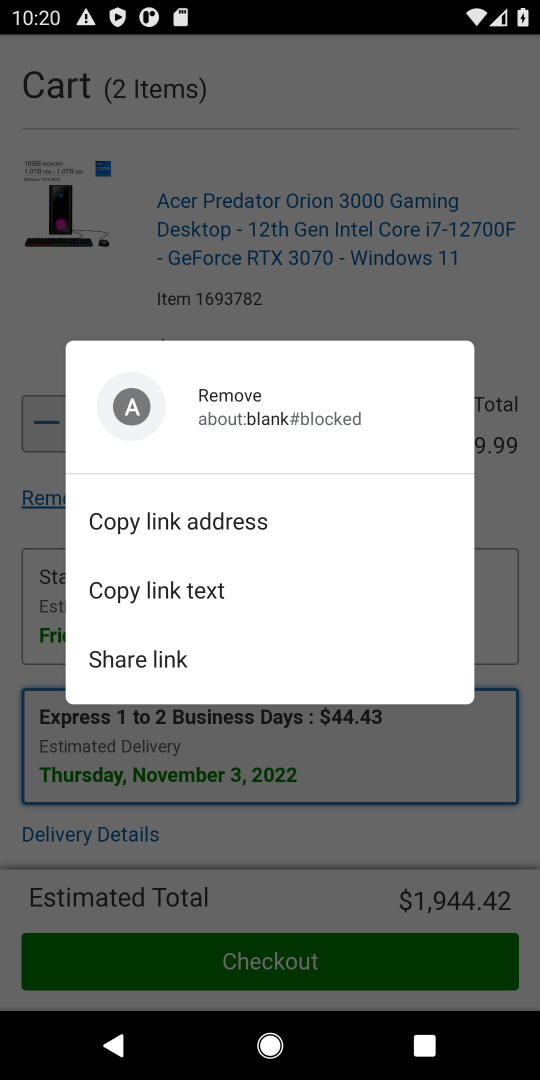
Step 50: click (53, 417)
Your task to perform on an android device: Empty the shopping cart on costco.com. Image 51: 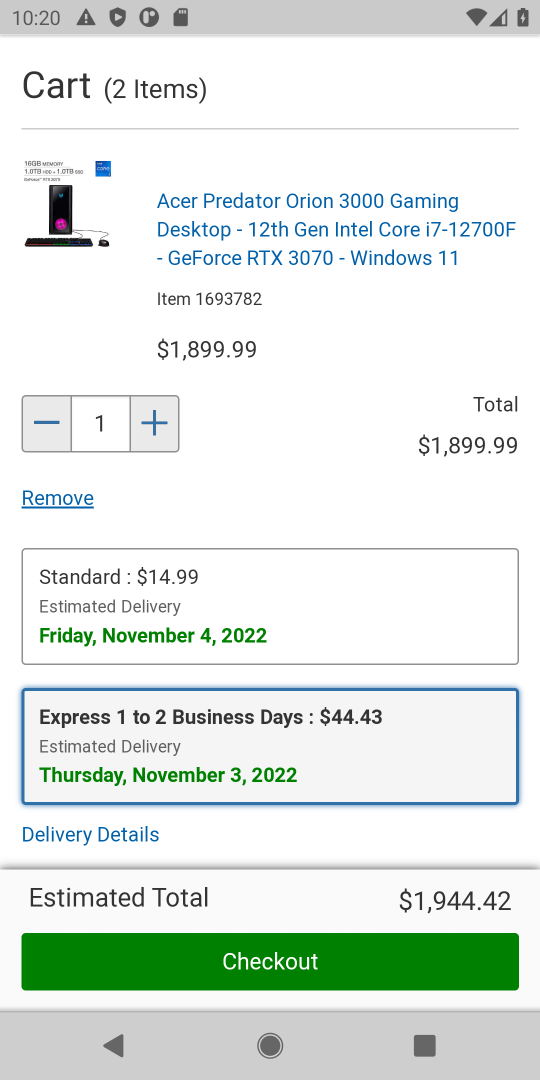
Step 51: click (48, 422)
Your task to perform on an android device: Empty the shopping cart on costco.com. Image 52: 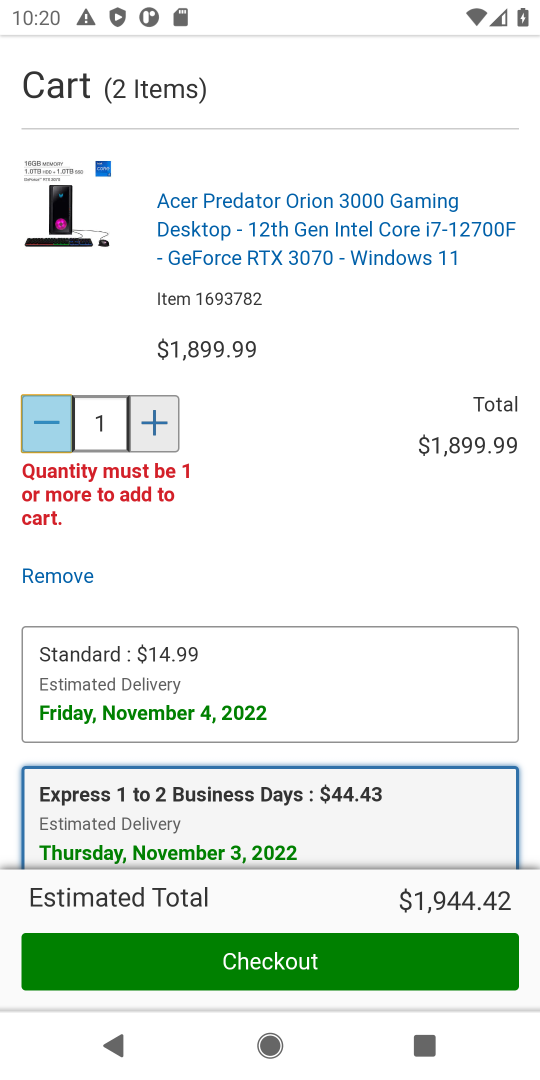
Step 52: click (47, 423)
Your task to perform on an android device: Empty the shopping cart on costco.com. Image 53: 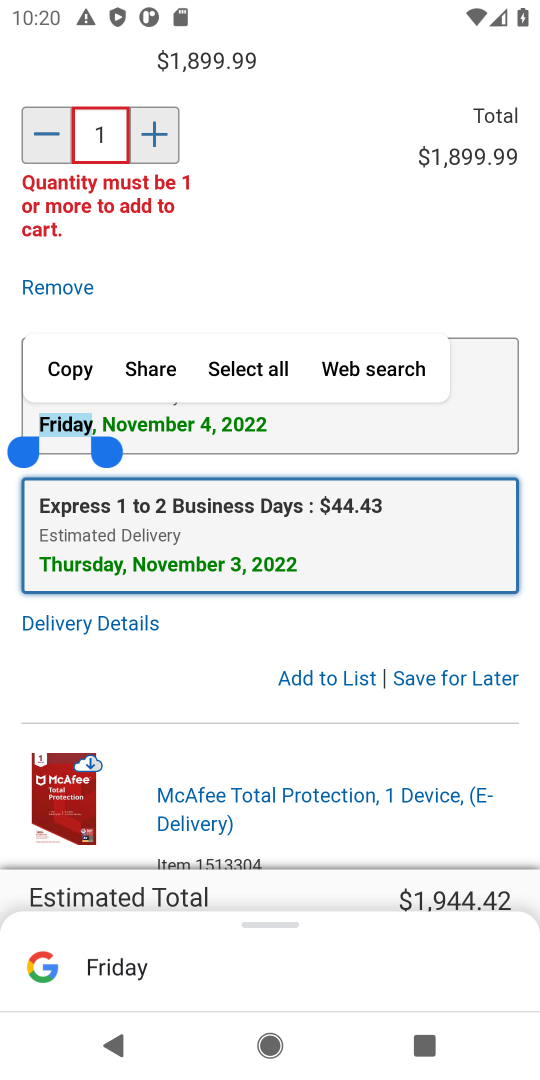
Step 53: drag from (318, 236) to (365, 908)
Your task to perform on an android device: Empty the shopping cart on costco.com. Image 54: 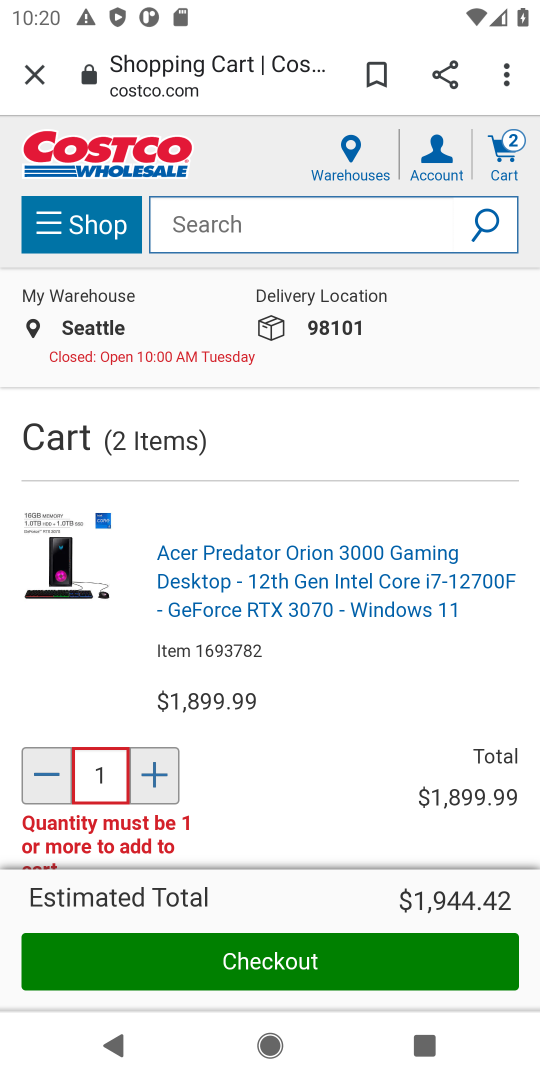
Step 54: click (506, 165)
Your task to perform on an android device: Empty the shopping cart on costco.com. Image 55: 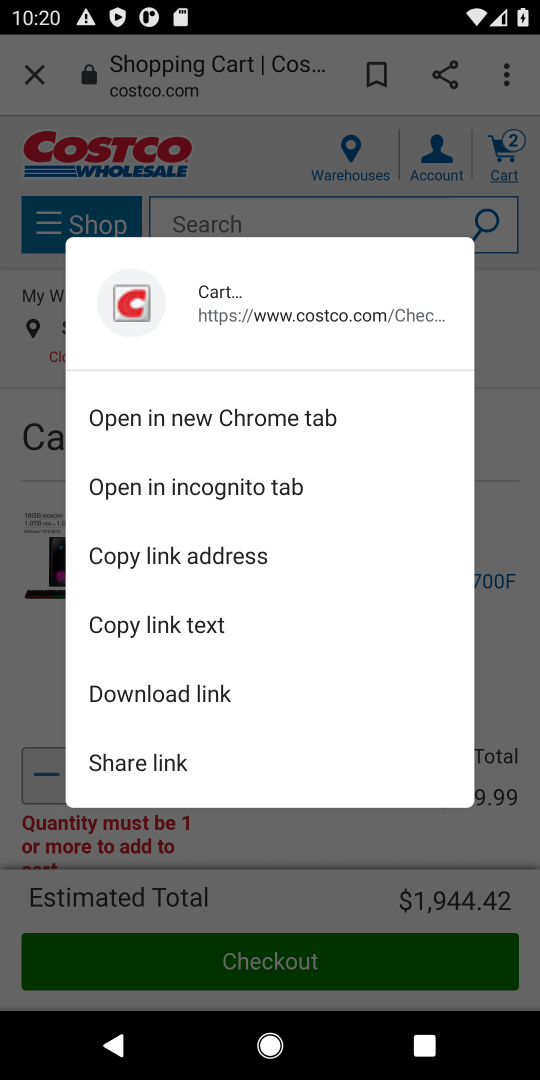
Step 55: click (499, 68)
Your task to perform on an android device: Empty the shopping cart on costco.com. Image 56: 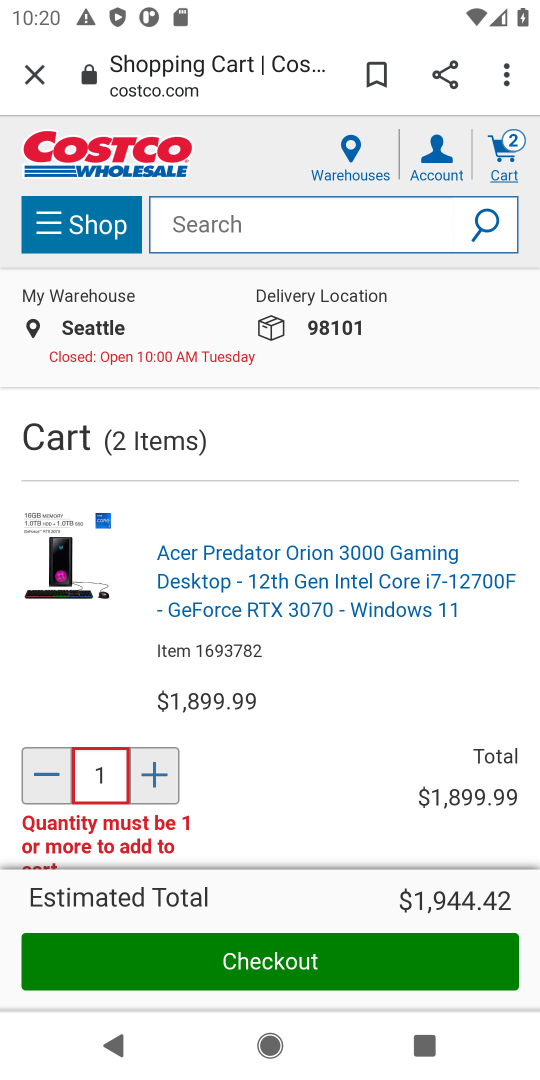
Step 56: task complete